Your task to perform on an android device: Clear all items from cart on target.com. Search for "razer naga" on target.com, select the first entry, add it to the cart, then select checkout. Image 0: 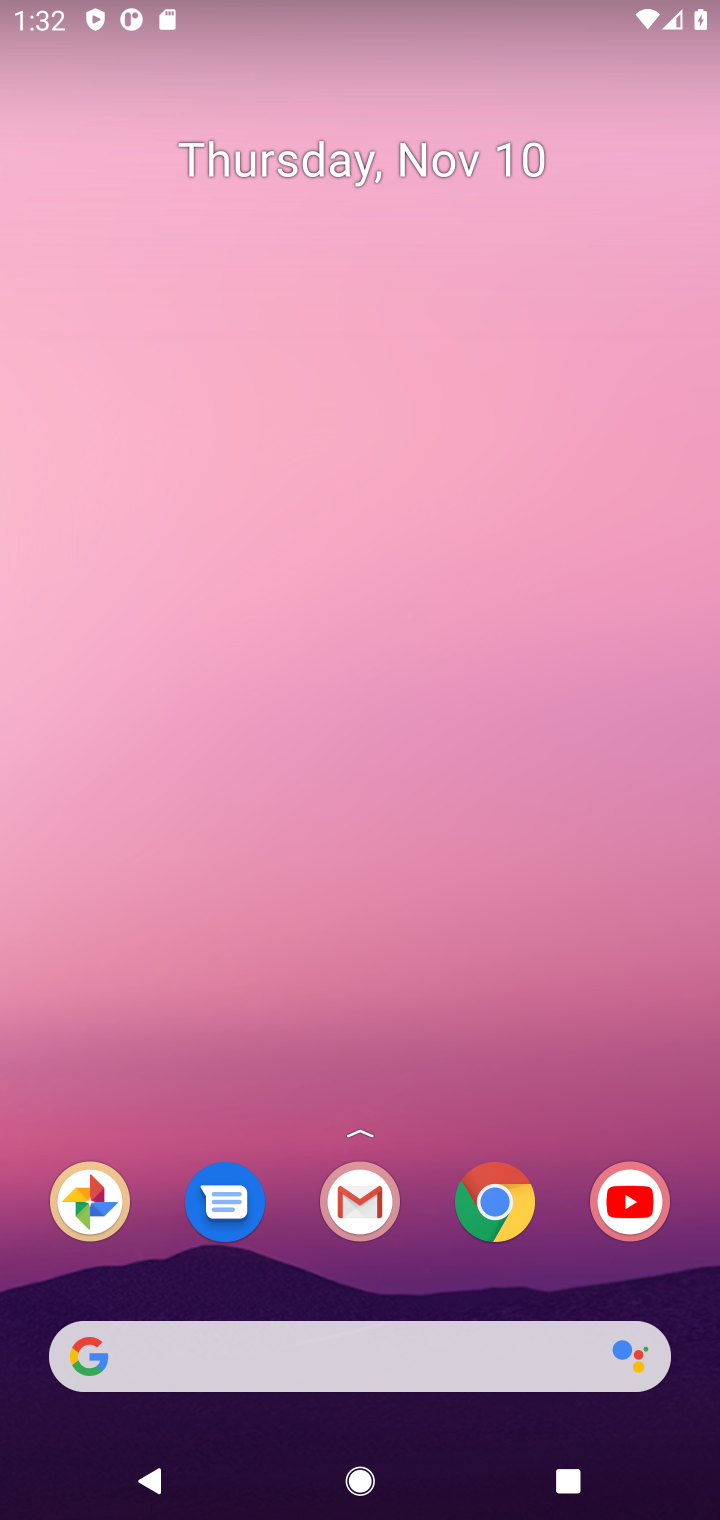
Step 0: click (490, 1203)
Your task to perform on an android device: Clear all items from cart on target.com. Search for "razer naga" on target.com, select the first entry, add it to the cart, then select checkout. Image 1: 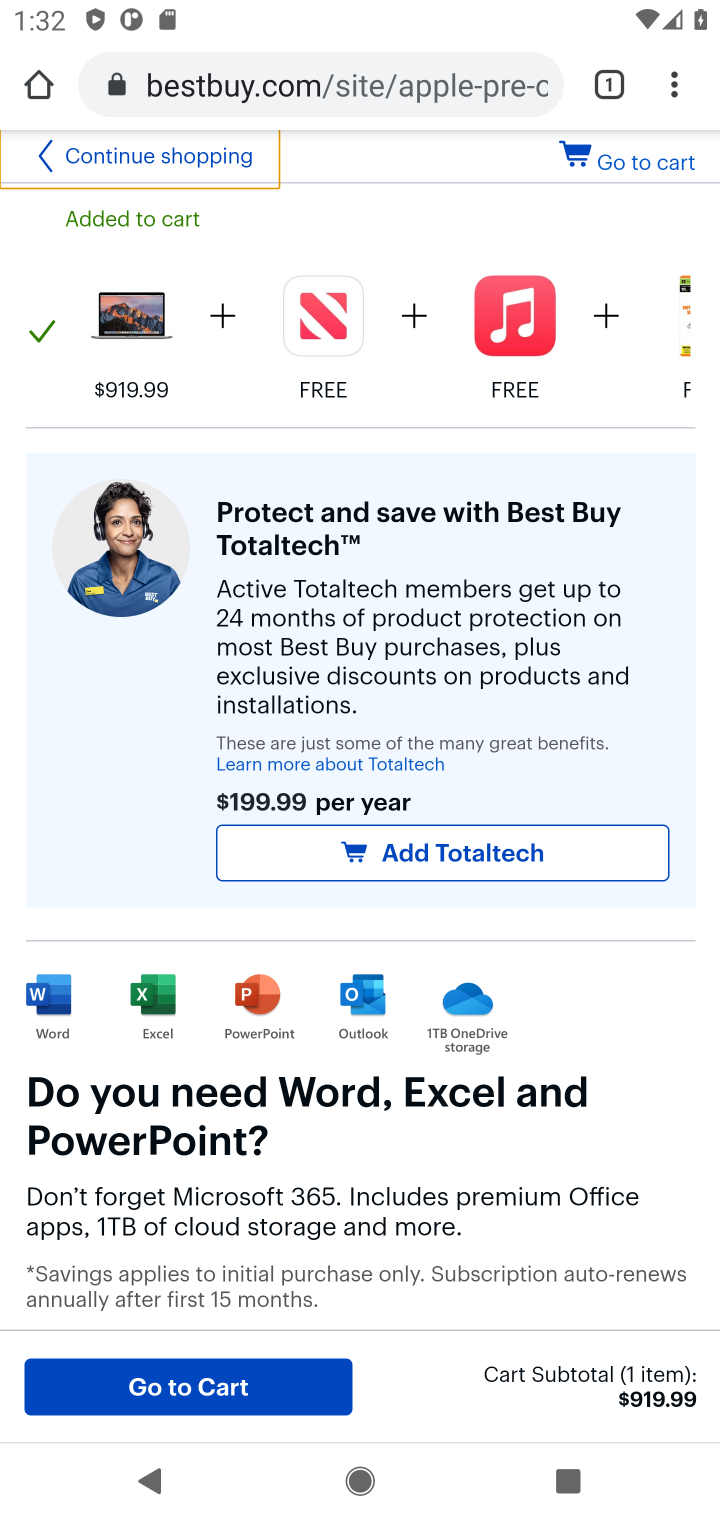
Step 1: click (378, 65)
Your task to perform on an android device: Clear all items from cart on target.com. Search for "razer naga" on target.com, select the first entry, add it to the cart, then select checkout. Image 2: 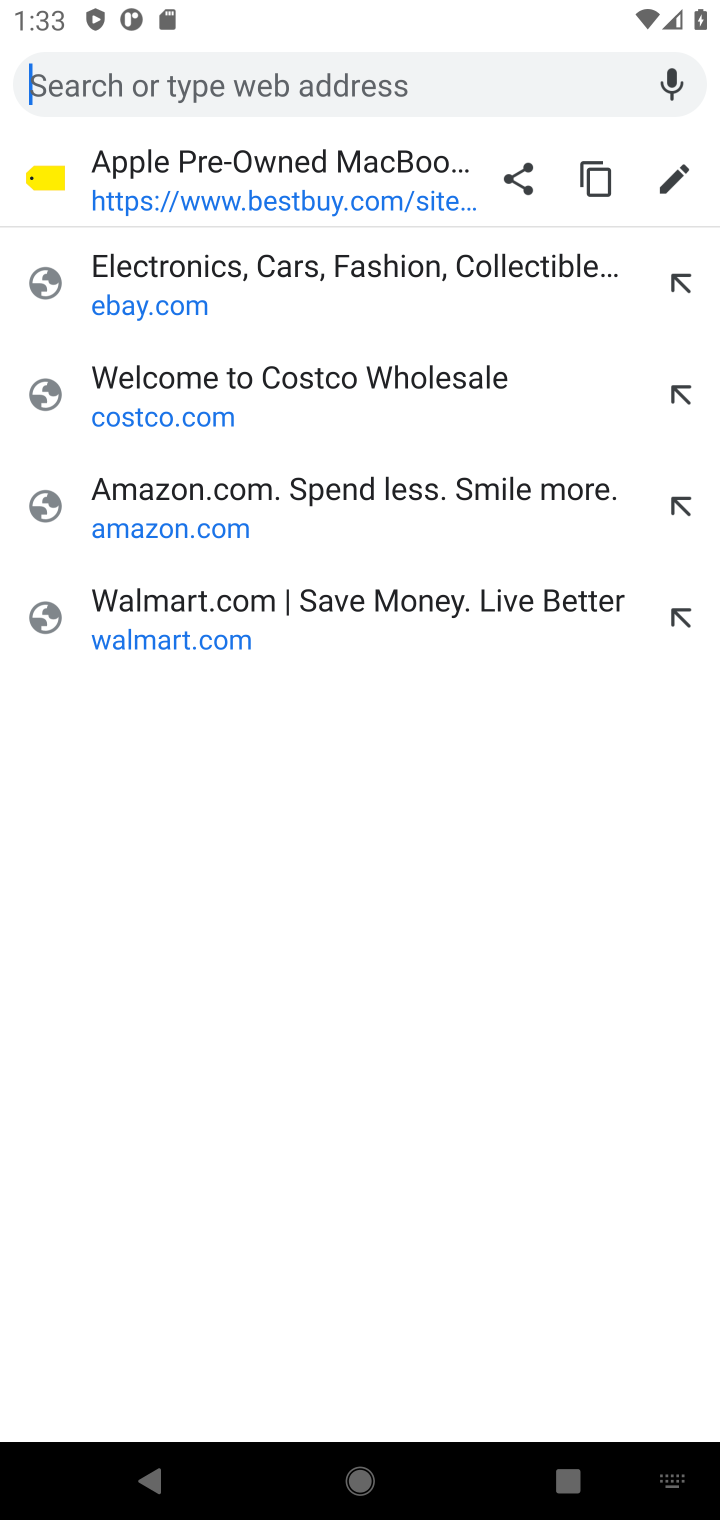
Step 2: type "target.com"
Your task to perform on an android device: Clear all items from cart on target.com. Search for "razer naga" on target.com, select the first entry, add it to the cart, then select checkout. Image 3: 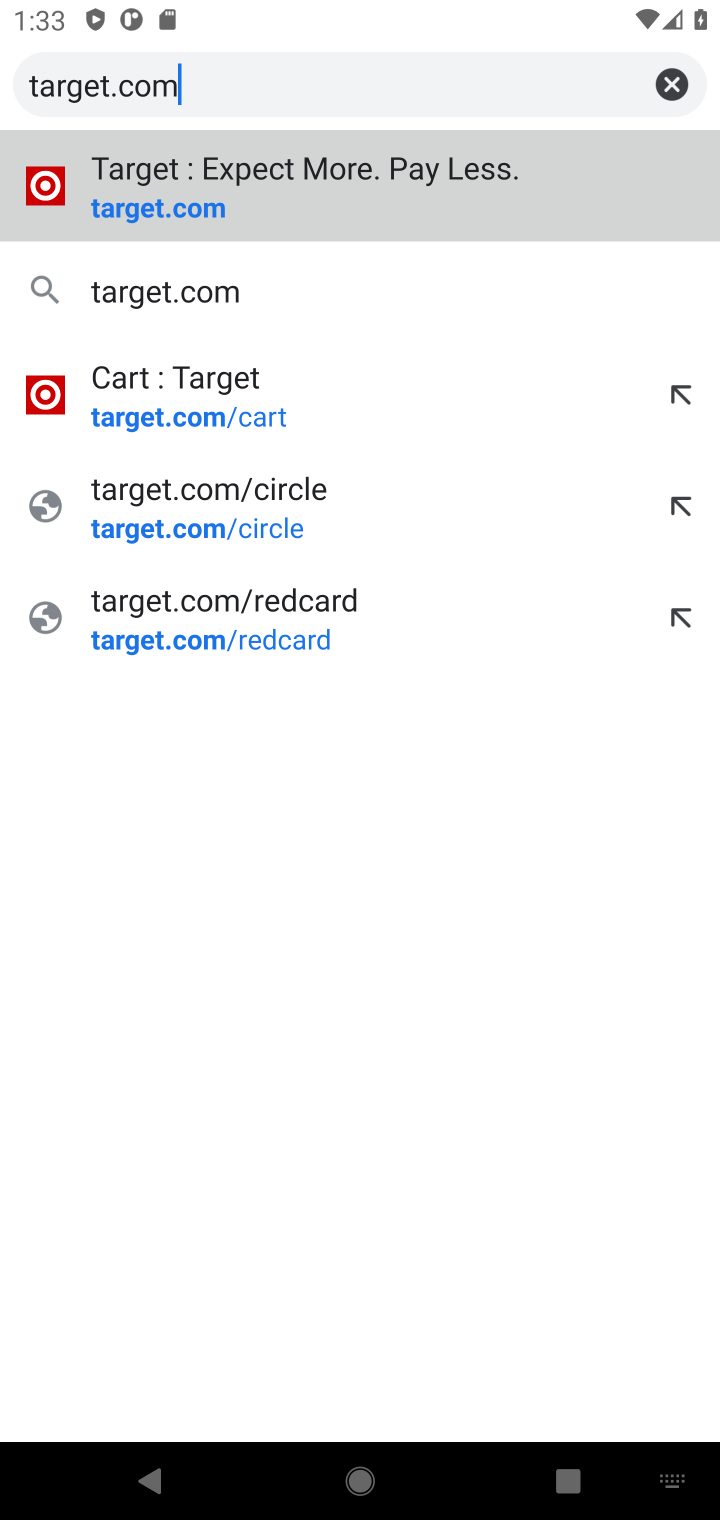
Step 3: click (223, 294)
Your task to perform on an android device: Clear all items from cart on target.com. Search for "razer naga" on target.com, select the first entry, add it to the cart, then select checkout. Image 4: 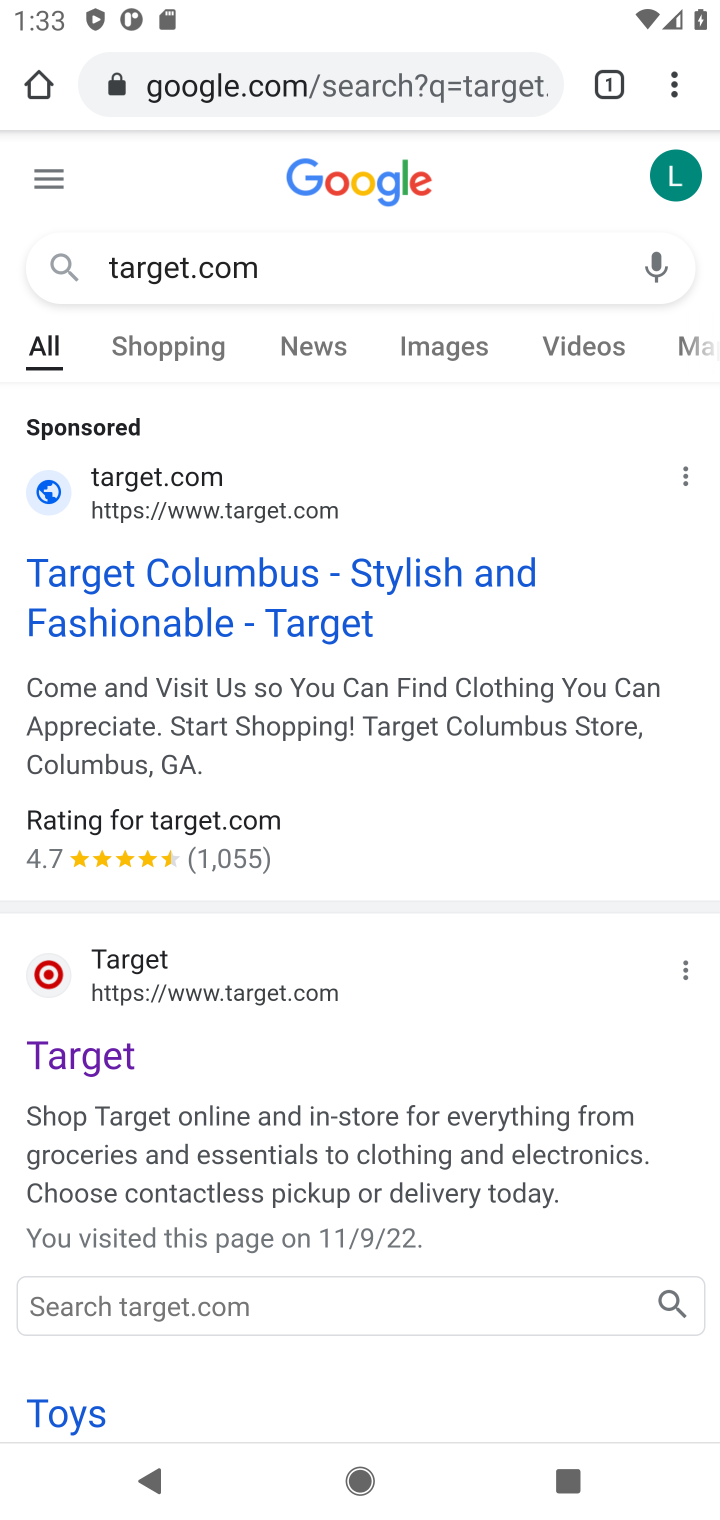
Step 4: click (291, 501)
Your task to perform on an android device: Clear all items from cart on target.com. Search for "razer naga" on target.com, select the first entry, add it to the cart, then select checkout. Image 5: 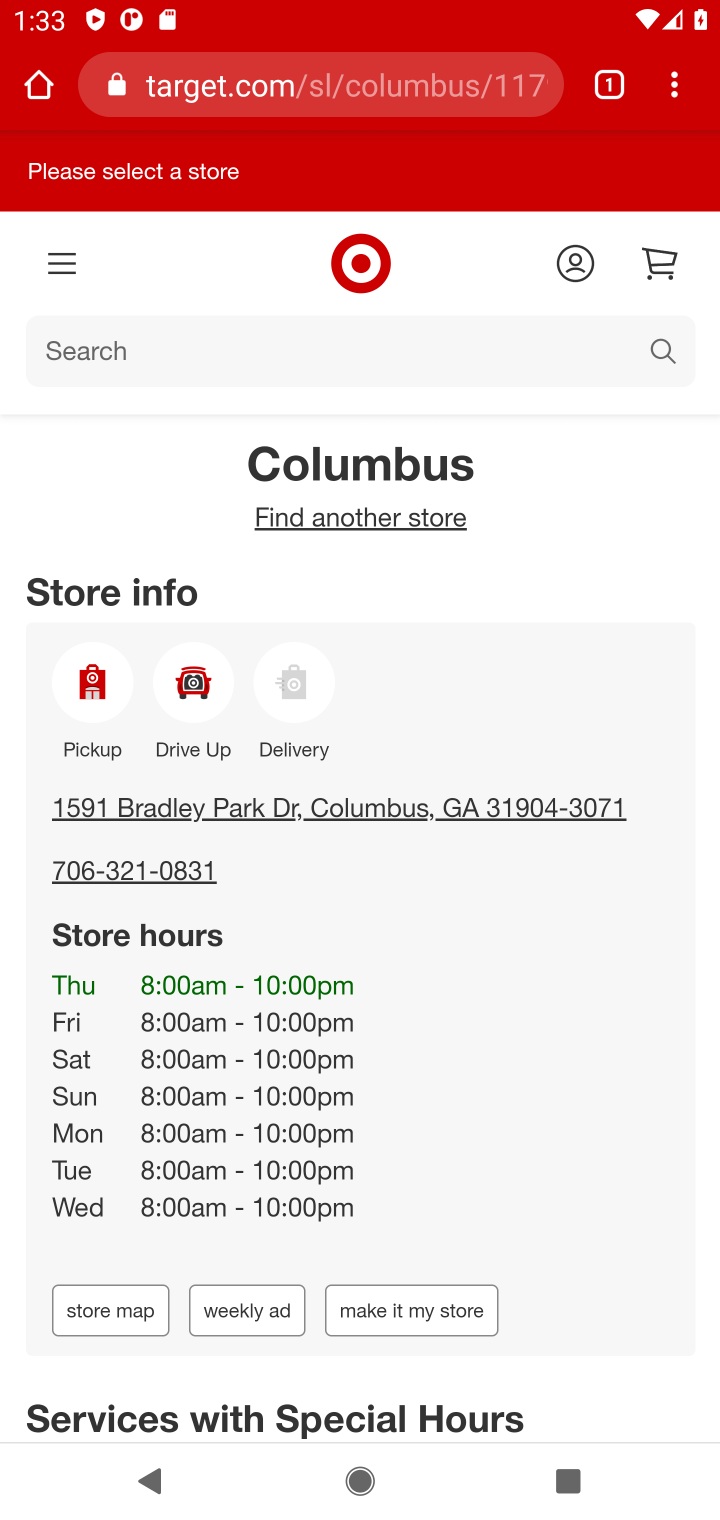
Step 5: click (670, 262)
Your task to perform on an android device: Clear all items from cart on target.com. Search for "razer naga" on target.com, select the first entry, add it to the cart, then select checkout. Image 6: 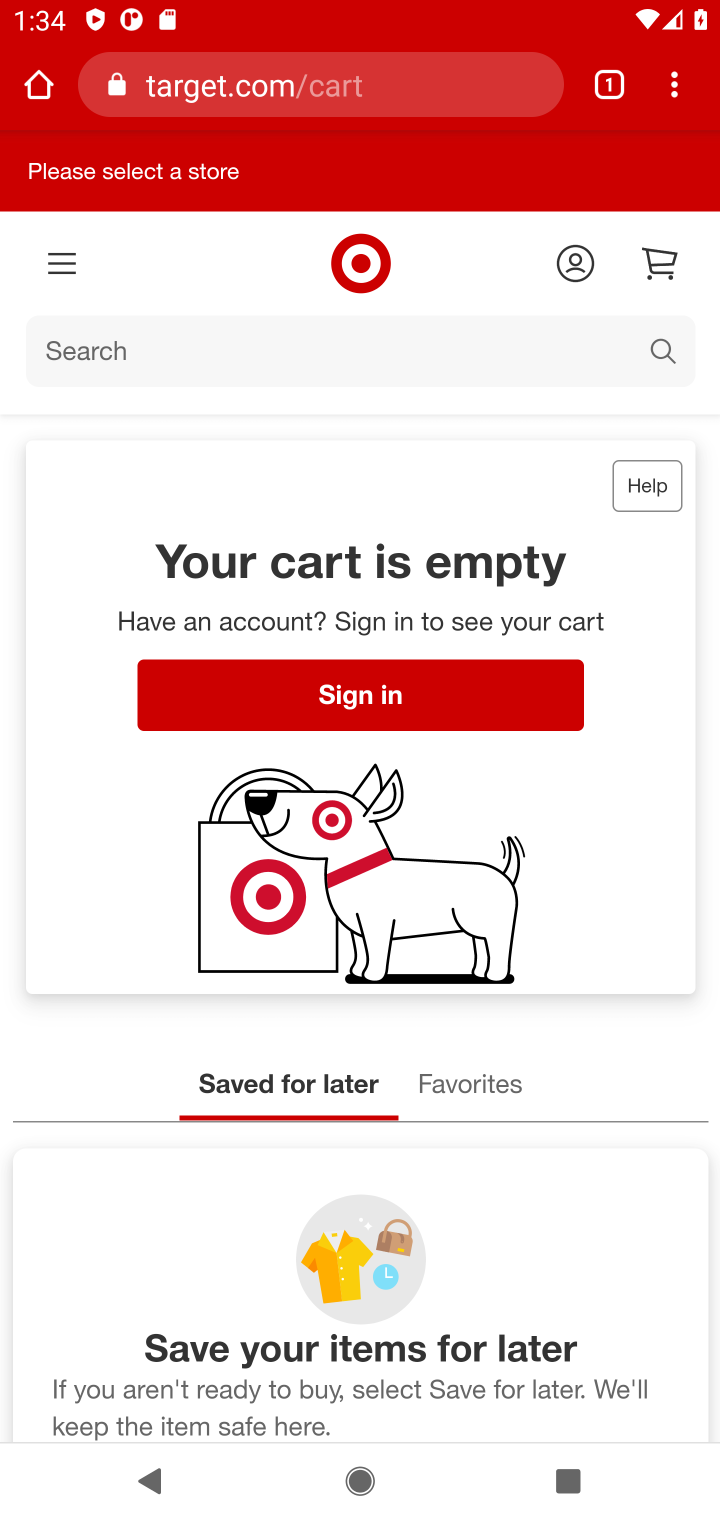
Step 6: click (671, 357)
Your task to perform on an android device: Clear all items from cart on target.com. Search for "razer naga" on target.com, select the first entry, add it to the cart, then select checkout. Image 7: 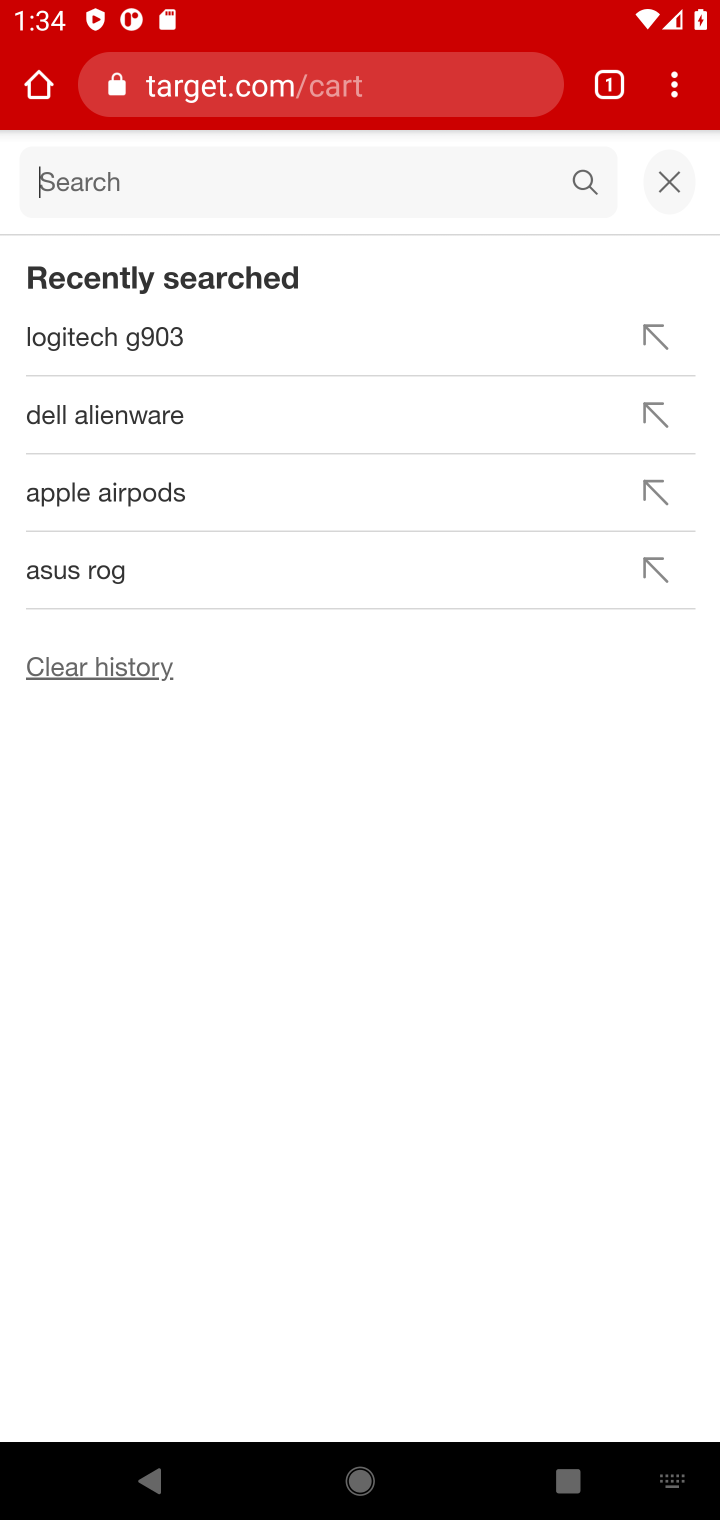
Step 7: press enter
Your task to perform on an android device: Clear all items from cart on target.com. Search for "razer naga" on target.com, select the first entry, add it to the cart, then select checkout. Image 8: 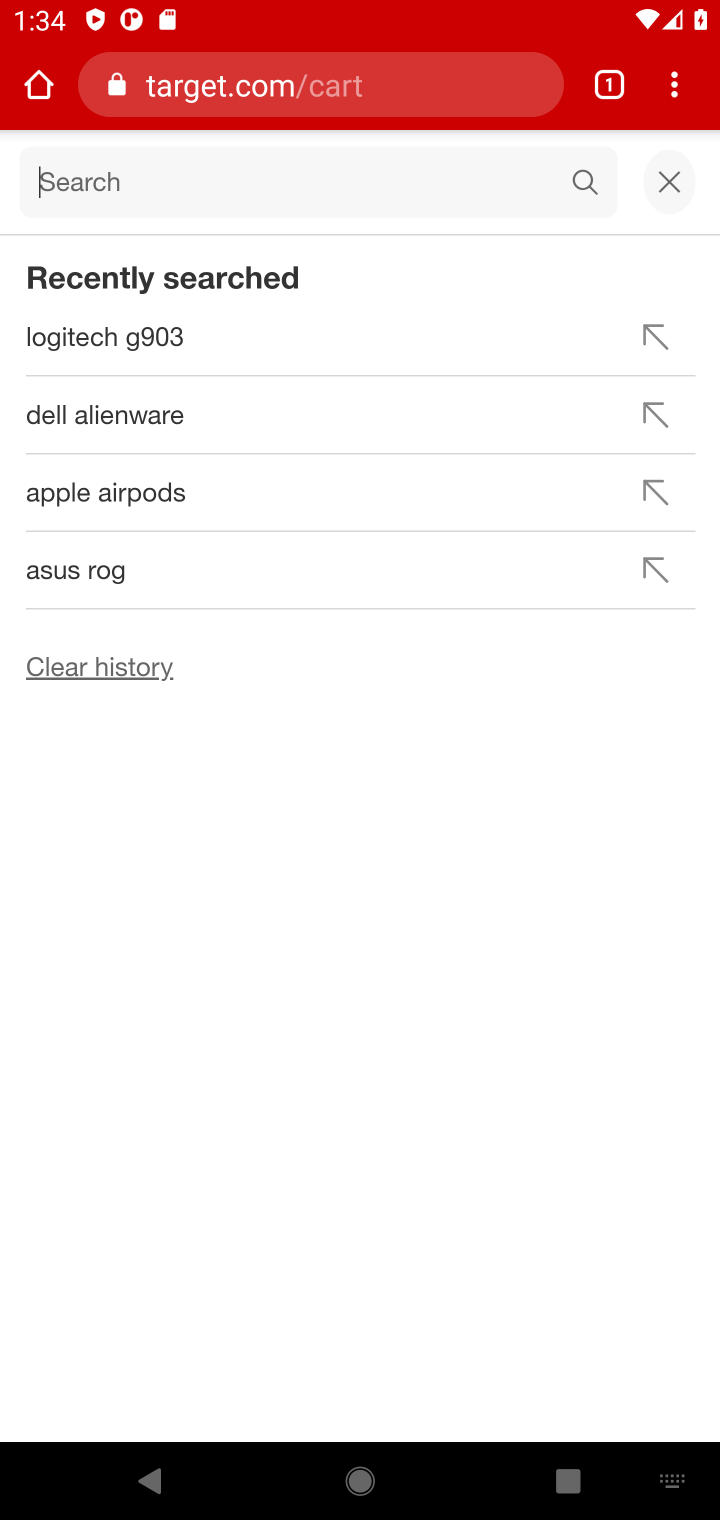
Step 8: type "razer naga"
Your task to perform on an android device: Clear all items from cart on target.com. Search for "razer naga" on target.com, select the first entry, add it to the cart, then select checkout. Image 9: 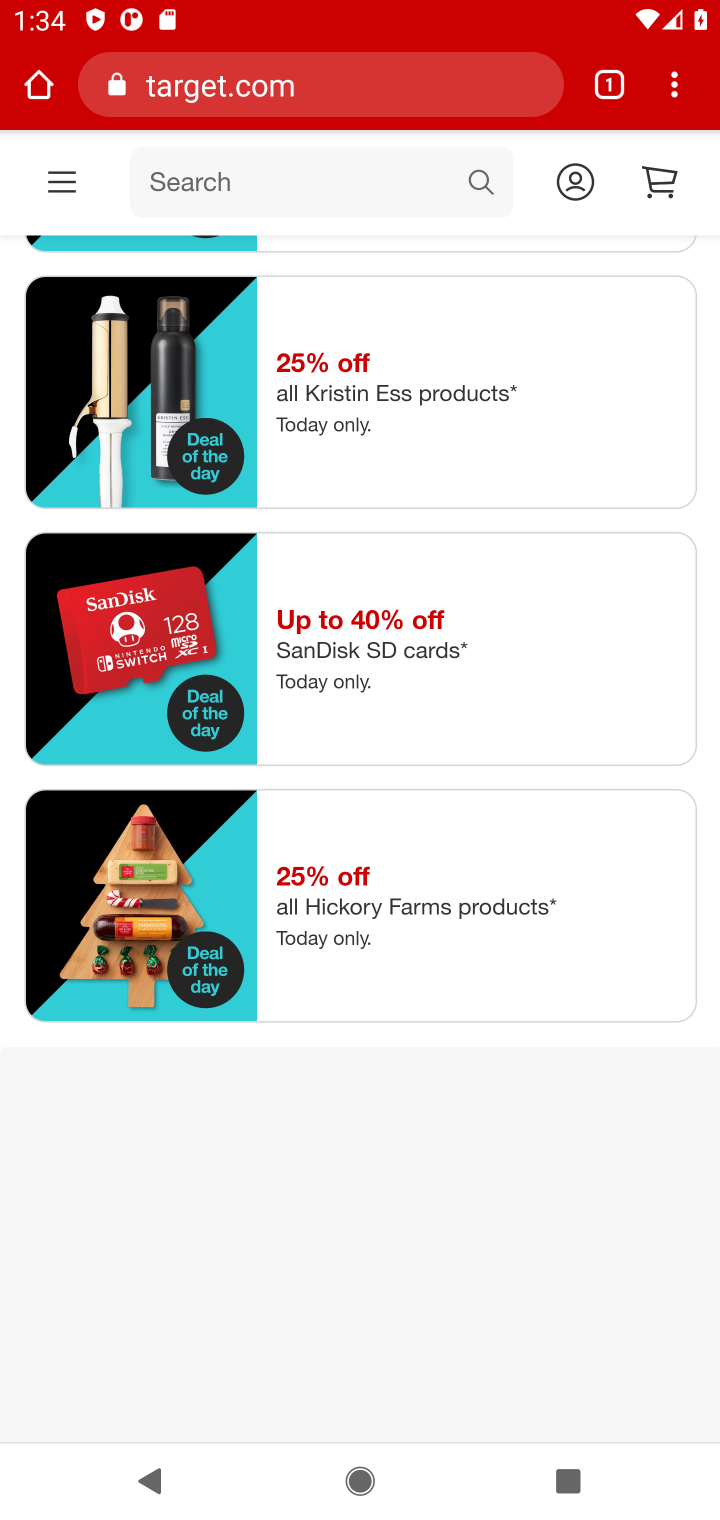
Step 9: click (486, 189)
Your task to perform on an android device: Clear all items from cart on target.com. Search for "razer naga" on target.com, select the first entry, add it to the cart, then select checkout. Image 10: 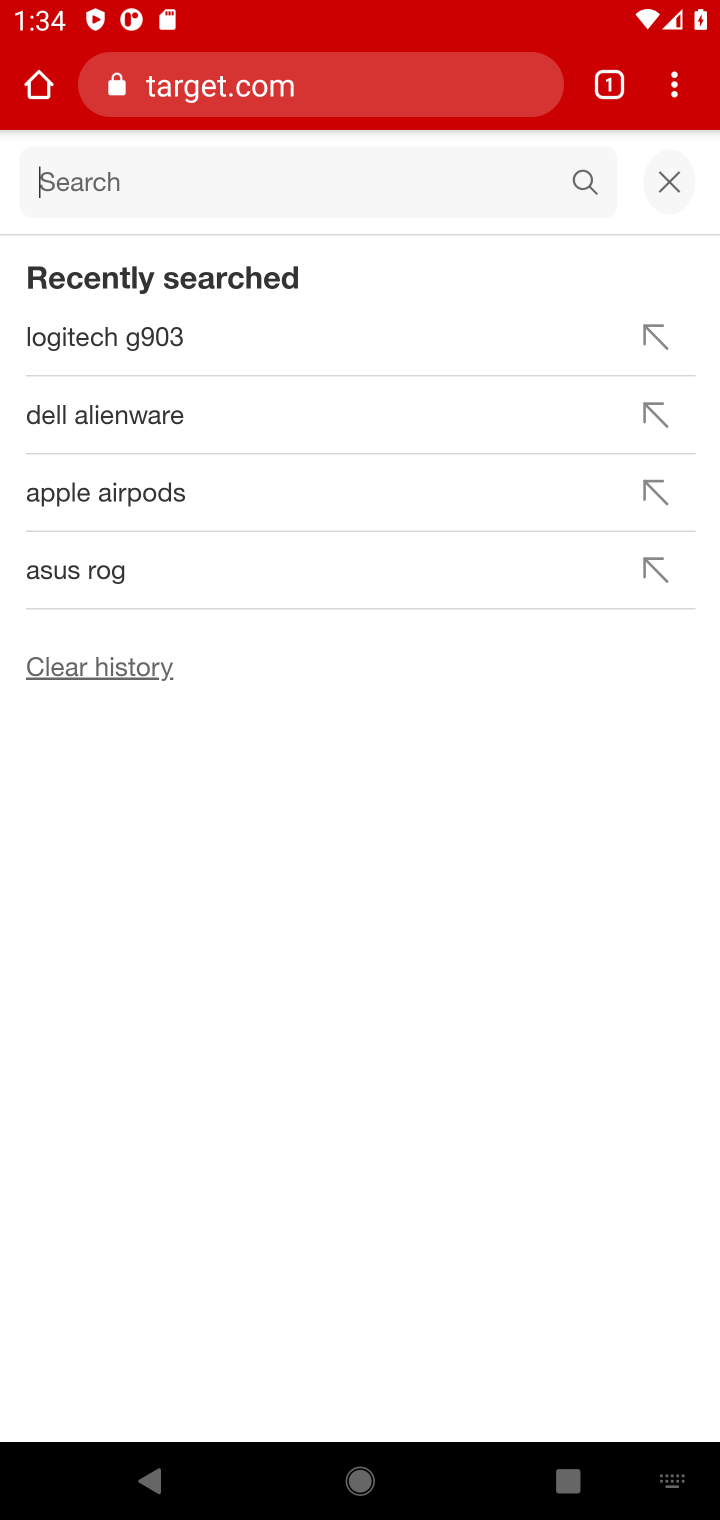
Step 10: press enter
Your task to perform on an android device: Clear all items from cart on target.com. Search for "razer naga" on target.com, select the first entry, add it to the cart, then select checkout. Image 11: 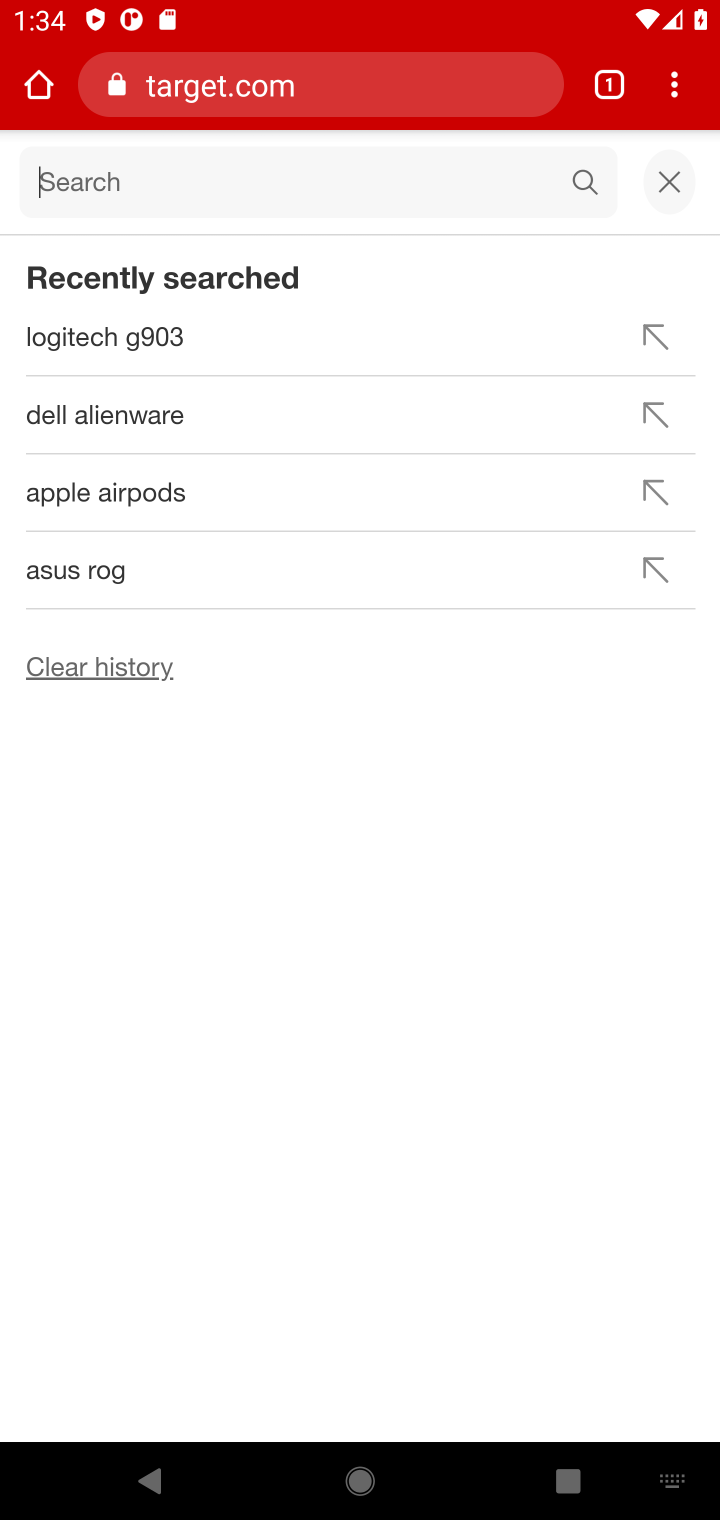
Step 11: type "razer naga"
Your task to perform on an android device: Clear all items from cart on target.com. Search for "razer naga" on target.com, select the first entry, add it to the cart, then select checkout. Image 12: 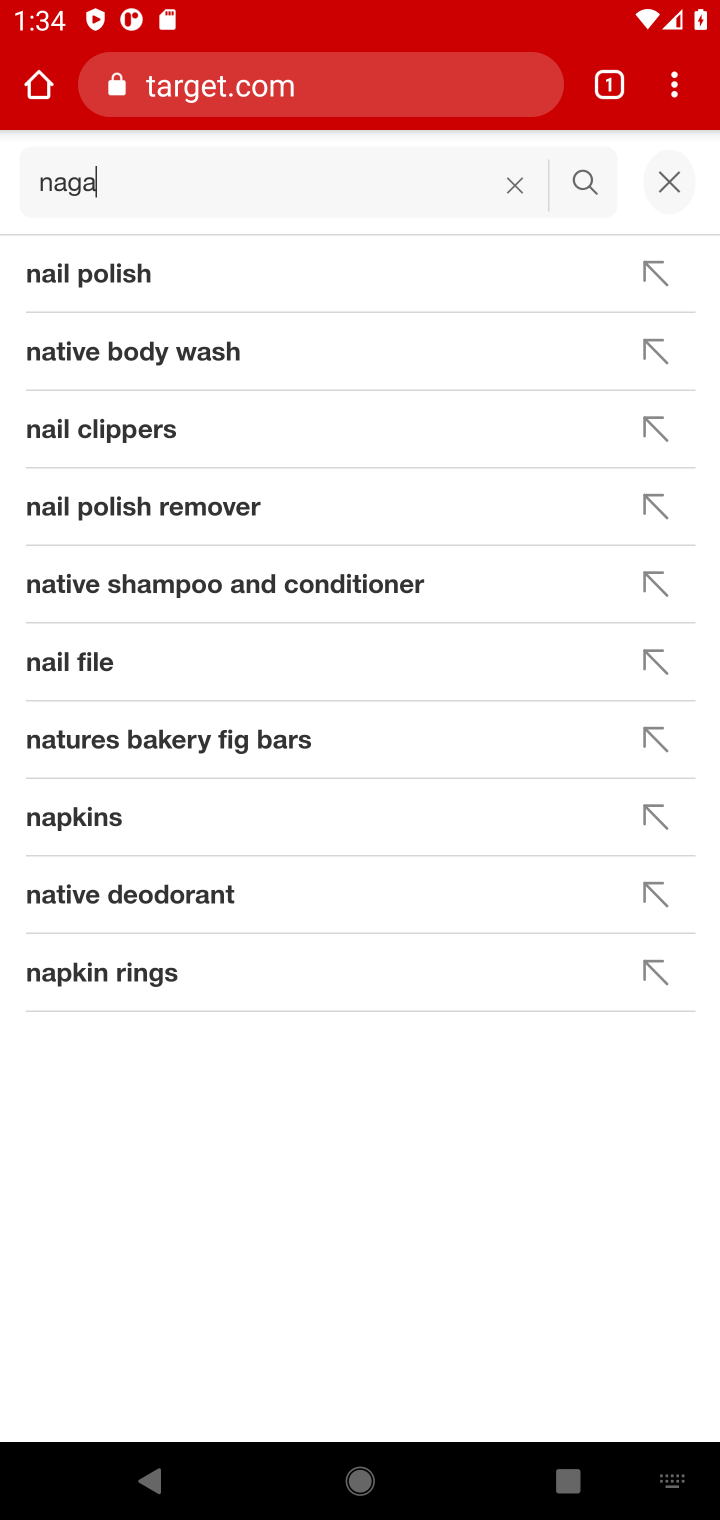
Step 12: click (676, 178)
Your task to perform on an android device: Clear all items from cart on target.com. Search for "razer naga" on target.com, select the first entry, add it to the cart, then select checkout. Image 13: 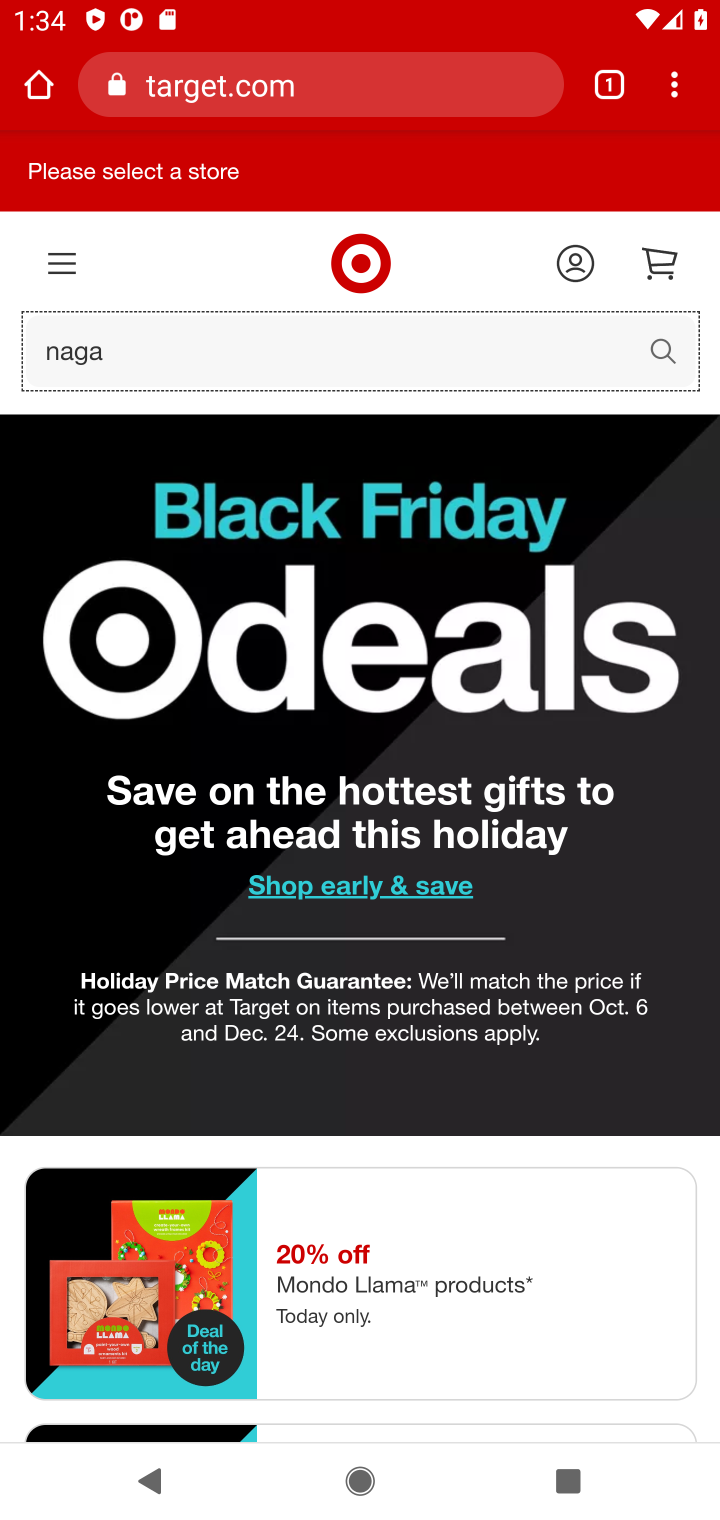
Step 13: click (657, 354)
Your task to perform on an android device: Clear all items from cart on target.com. Search for "razer naga" on target.com, select the first entry, add it to the cart, then select checkout. Image 14: 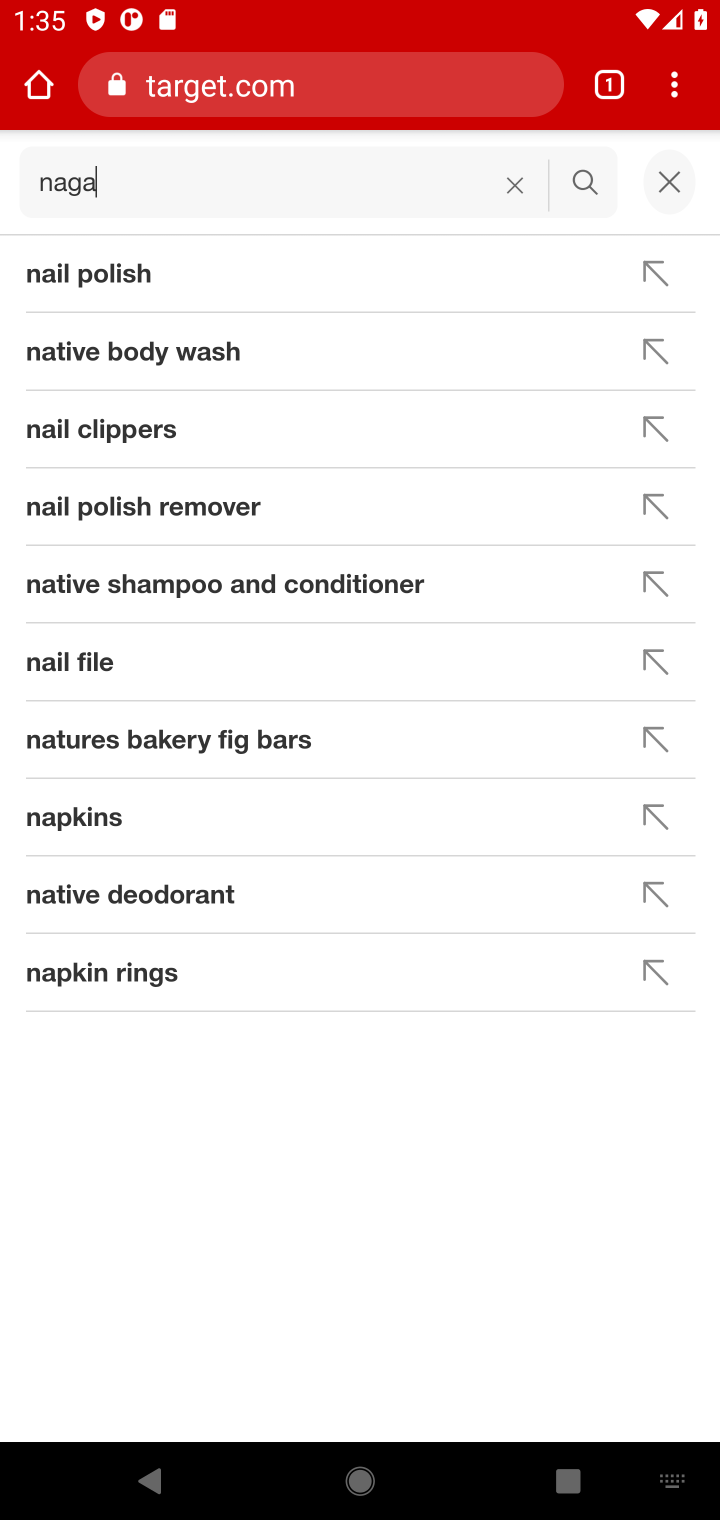
Step 14: click (514, 174)
Your task to perform on an android device: Clear all items from cart on target.com. Search for "razer naga" on target.com, select the first entry, add it to the cart, then select checkout. Image 15: 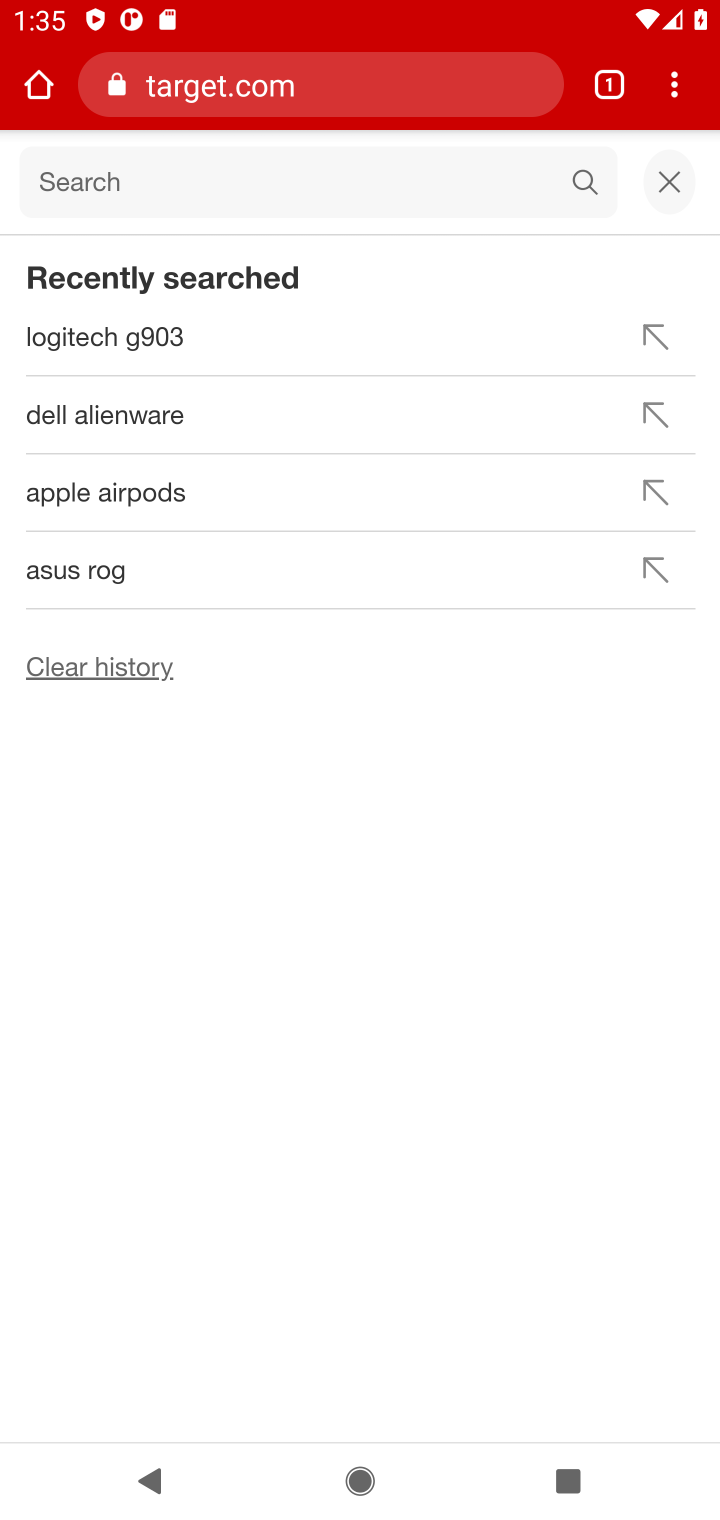
Step 15: type "razer naga"
Your task to perform on an android device: Clear all items from cart on target.com. Search for "razer naga" on target.com, select the first entry, add it to the cart, then select checkout. Image 16: 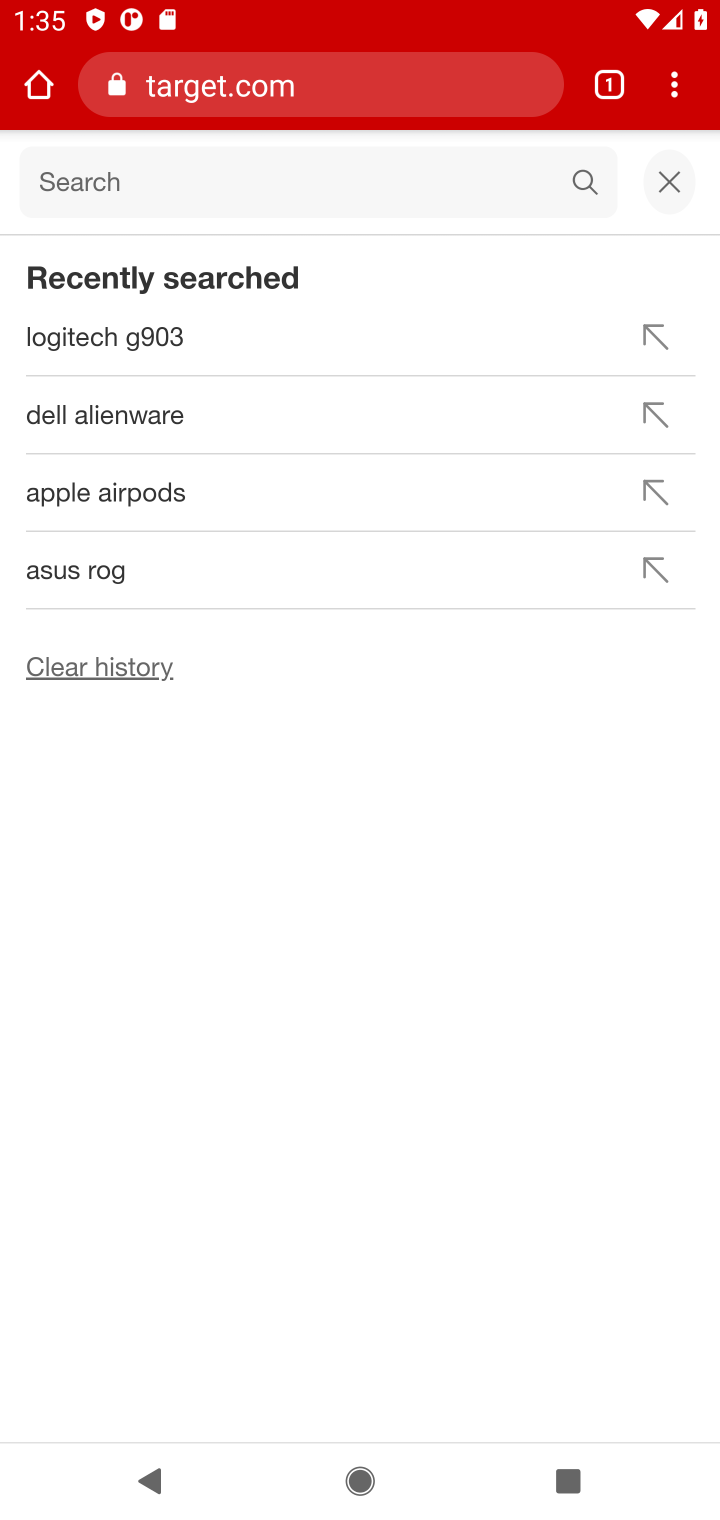
Step 16: press enter
Your task to perform on an android device: Clear all items from cart on target.com. Search for "razer naga" on target.com, select the first entry, add it to the cart, then select checkout. Image 17: 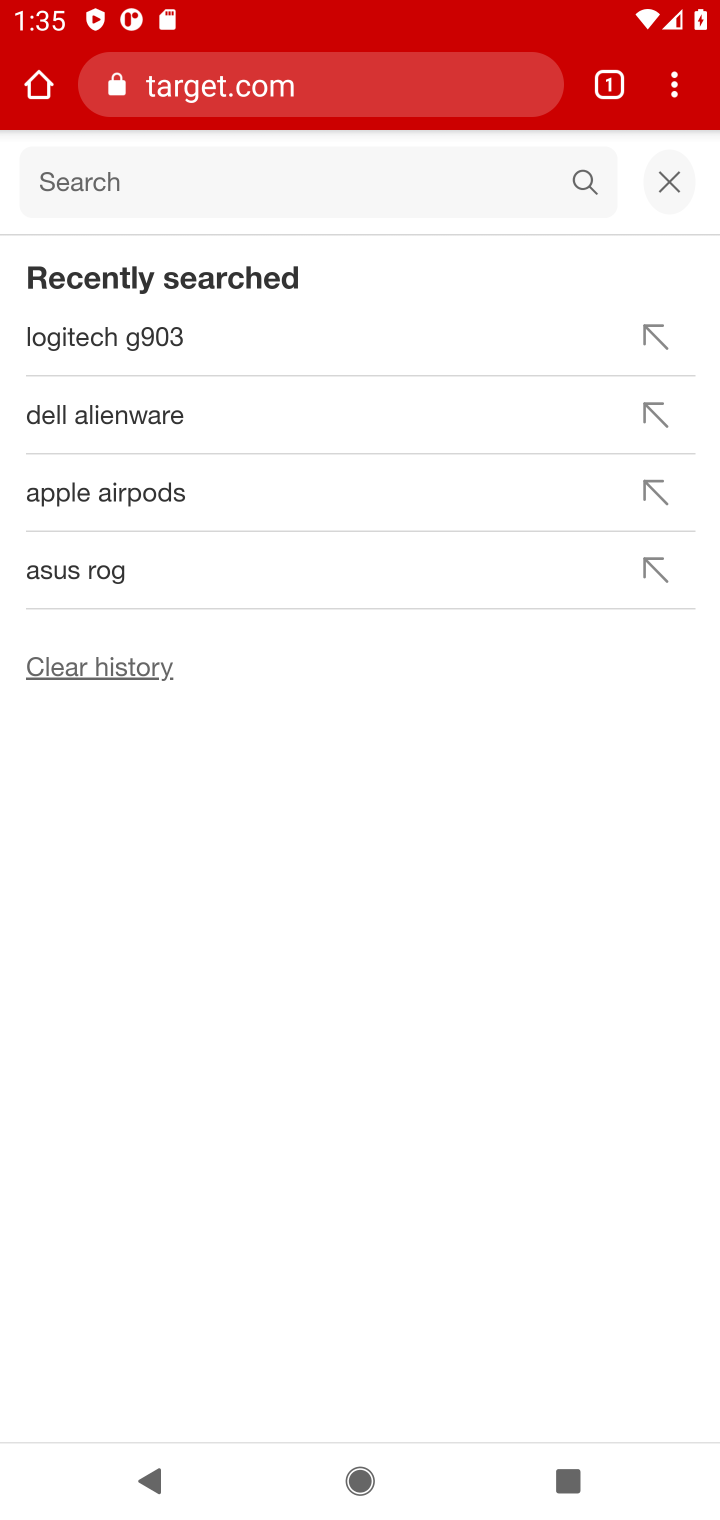
Step 17: click (380, 194)
Your task to perform on an android device: Clear all items from cart on target.com. Search for "razer naga" on target.com, select the first entry, add it to the cart, then select checkout. Image 18: 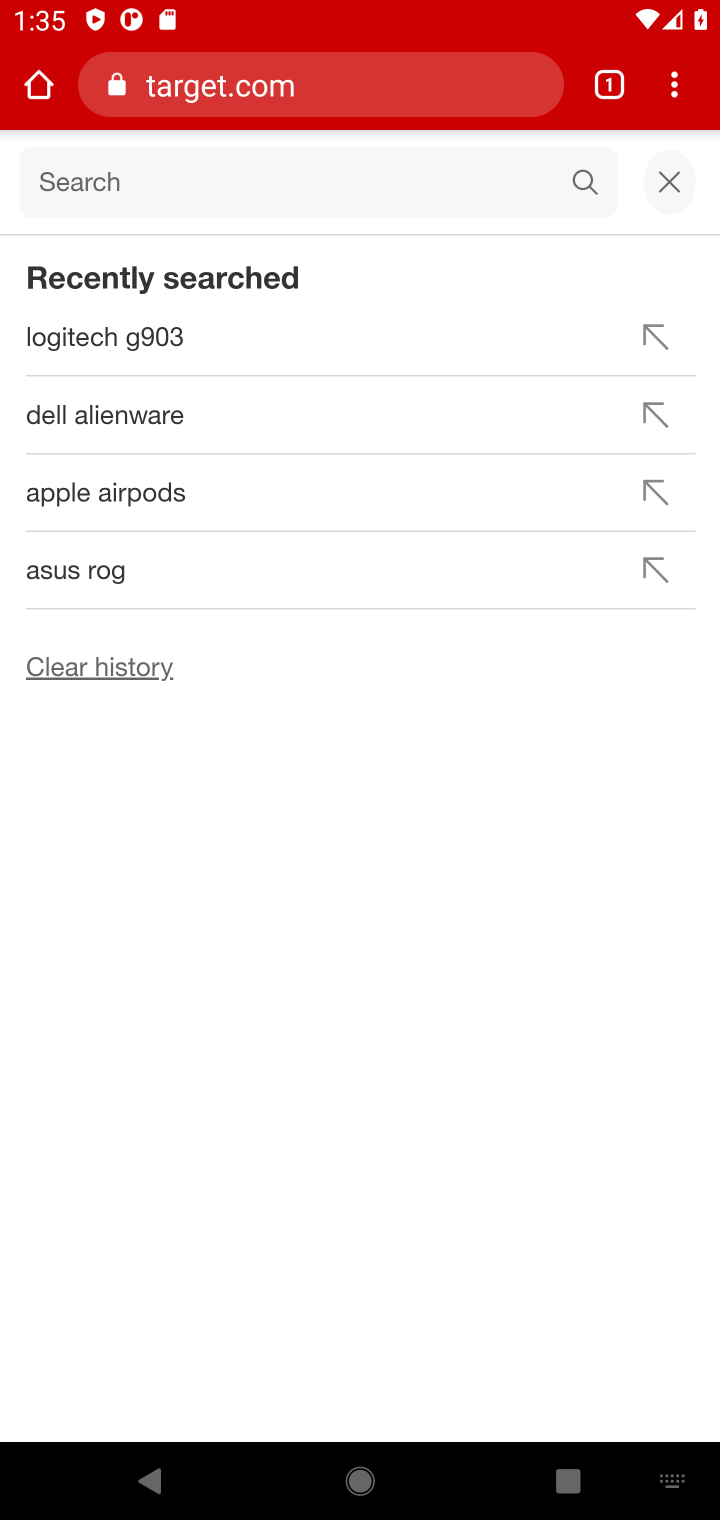
Step 18: type "razer naga"
Your task to perform on an android device: Clear all items from cart on target.com. Search for "razer naga" on target.com, select the first entry, add it to the cart, then select checkout. Image 19: 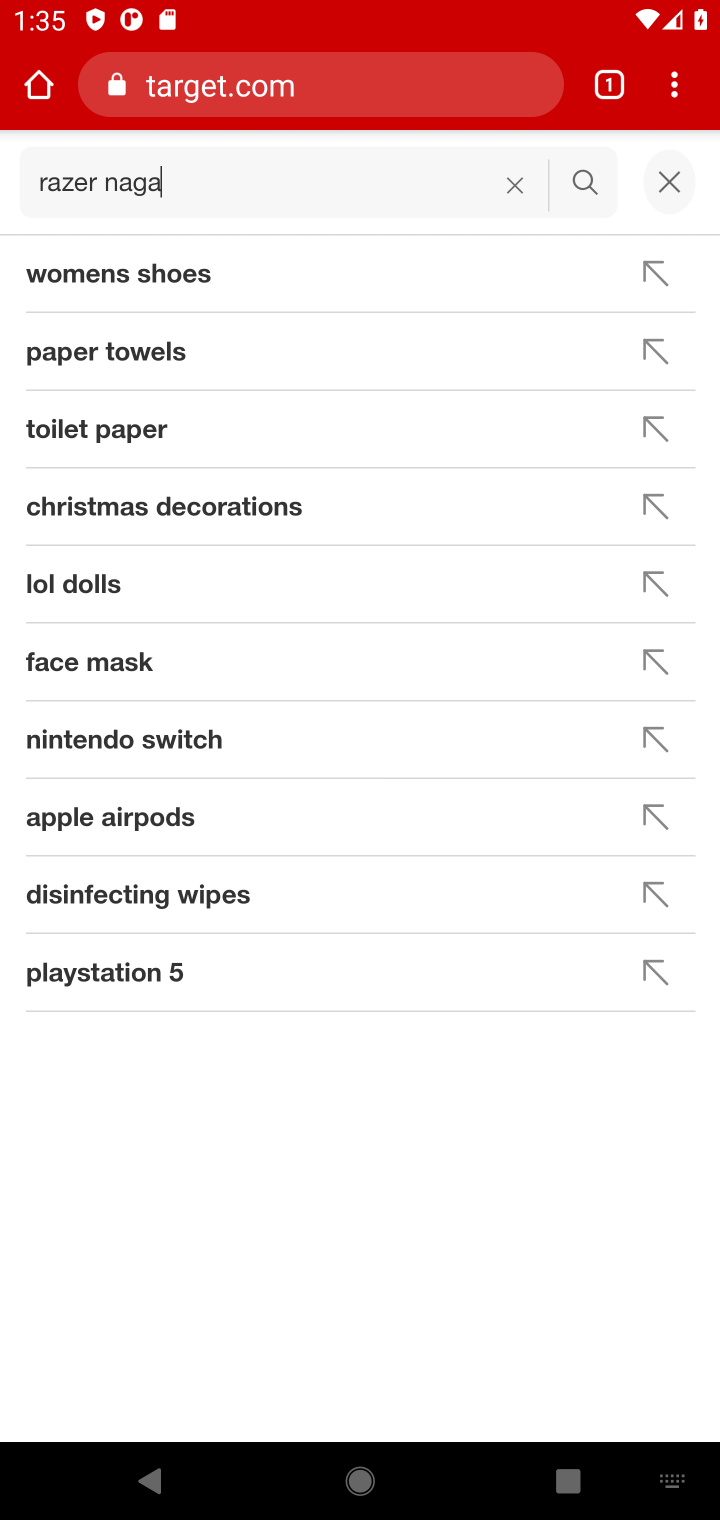
Step 19: press enter
Your task to perform on an android device: Clear all items from cart on target.com. Search for "razer naga" on target.com, select the first entry, add it to the cart, then select checkout. Image 20: 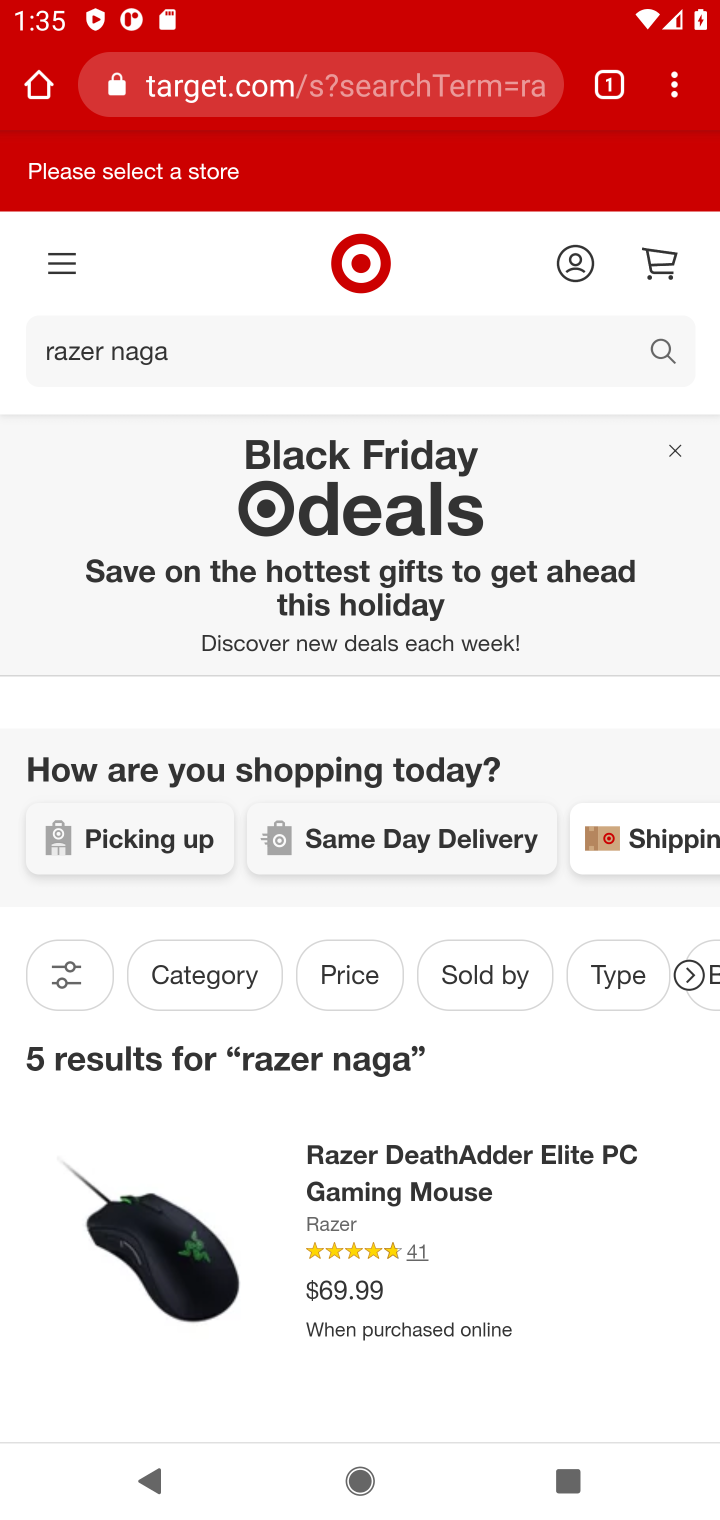
Step 20: drag from (516, 1249) to (453, 760)
Your task to perform on an android device: Clear all items from cart on target.com. Search for "razer naga" on target.com, select the first entry, add it to the cart, then select checkout. Image 21: 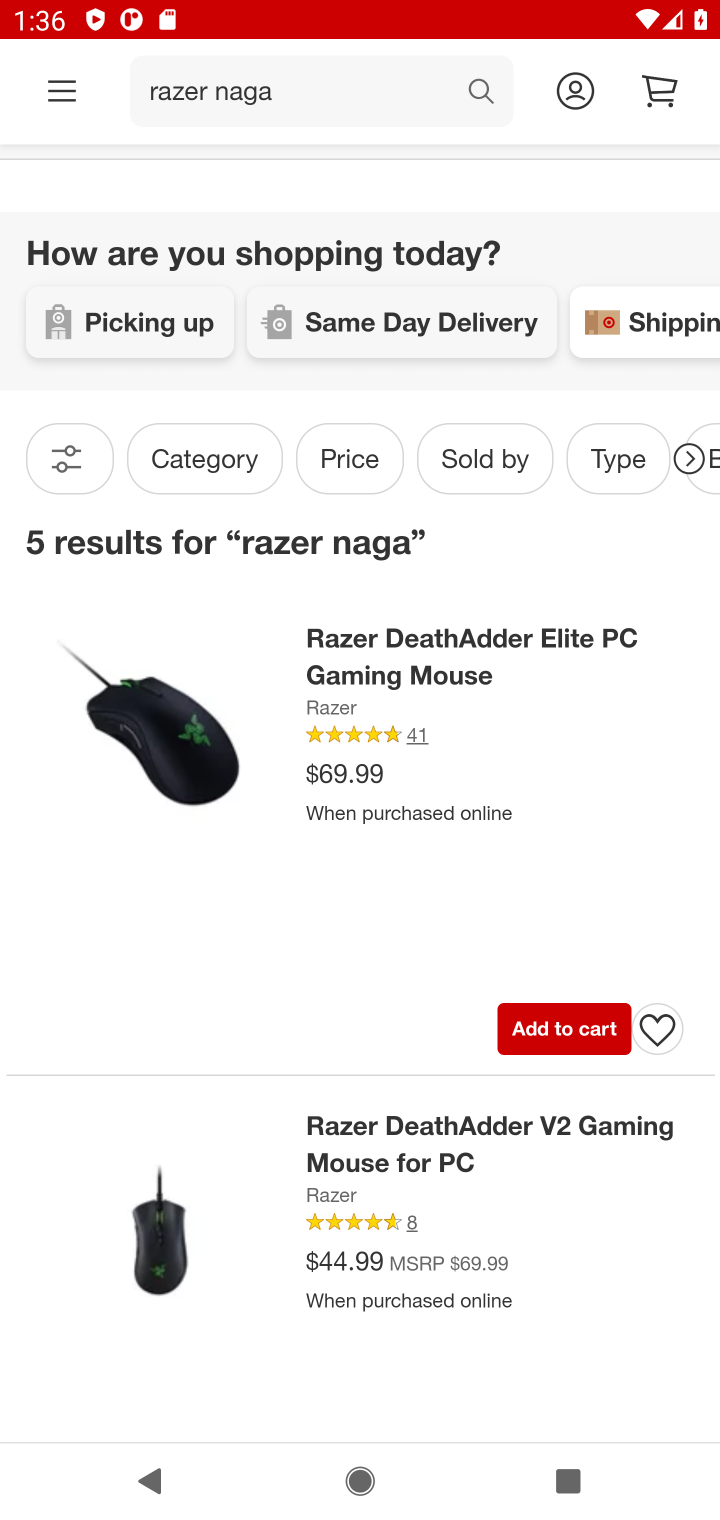
Step 21: drag from (405, 1234) to (429, 652)
Your task to perform on an android device: Clear all items from cart on target.com. Search for "razer naga" on target.com, select the first entry, add it to the cart, then select checkout. Image 22: 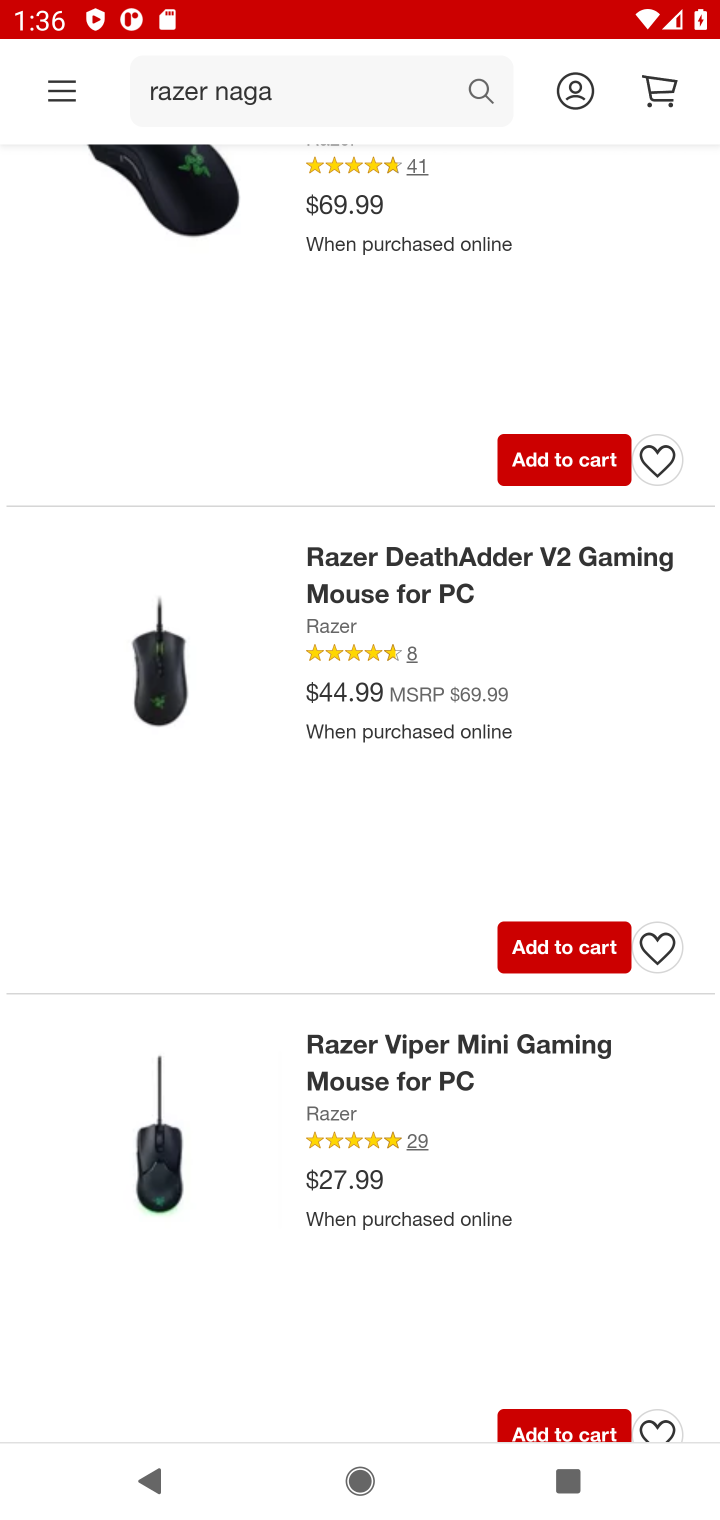
Step 22: drag from (321, 1212) to (331, 702)
Your task to perform on an android device: Clear all items from cart on target.com. Search for "razer naga" on target.com, select the first entry, add it to the cart, then select checkout. Image 23: 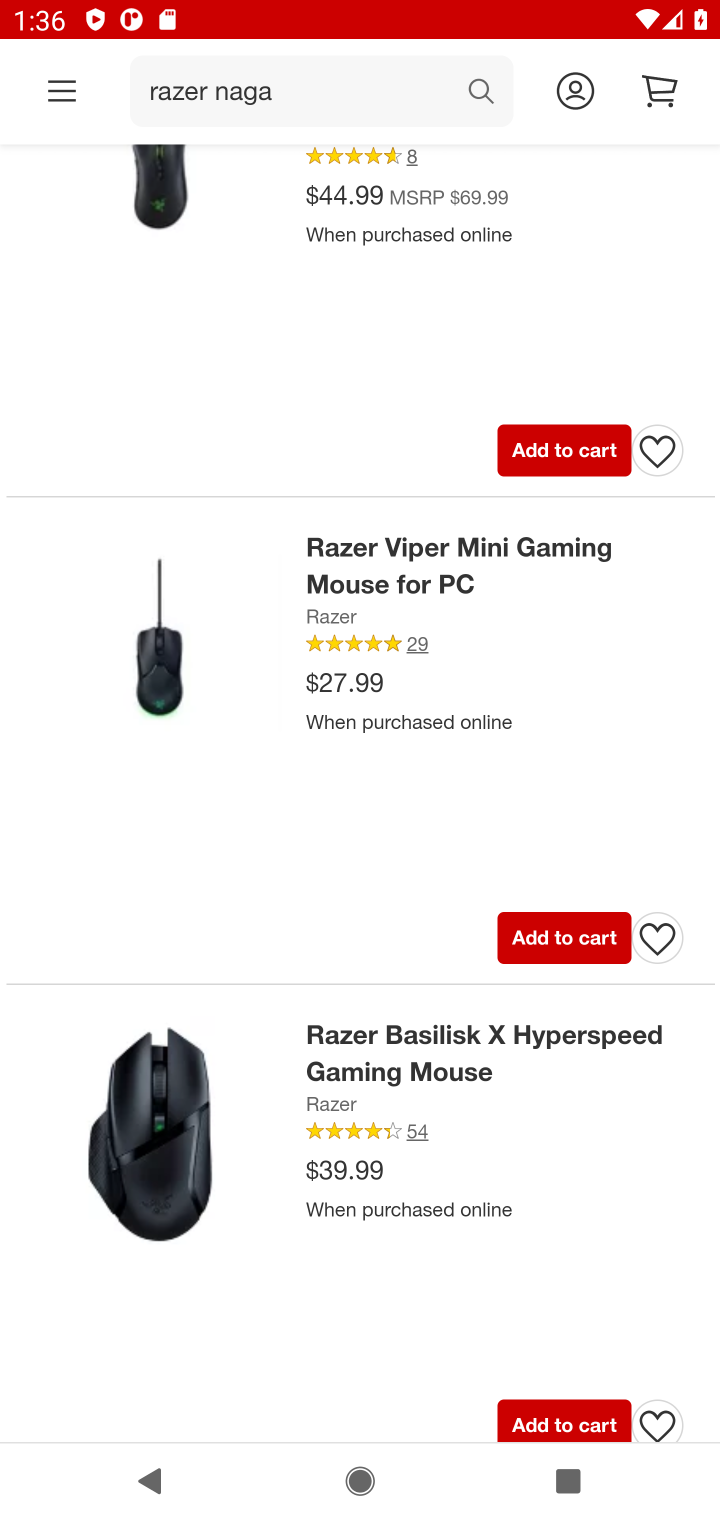
Step 23: drag from (417, 1112) to (441, 714)
Your task to perform on an android device: Clear all items from cart on target.com. Search for "razer naga" on target.com, select the first entry, add it to the cart, then select checkout. Image 24: 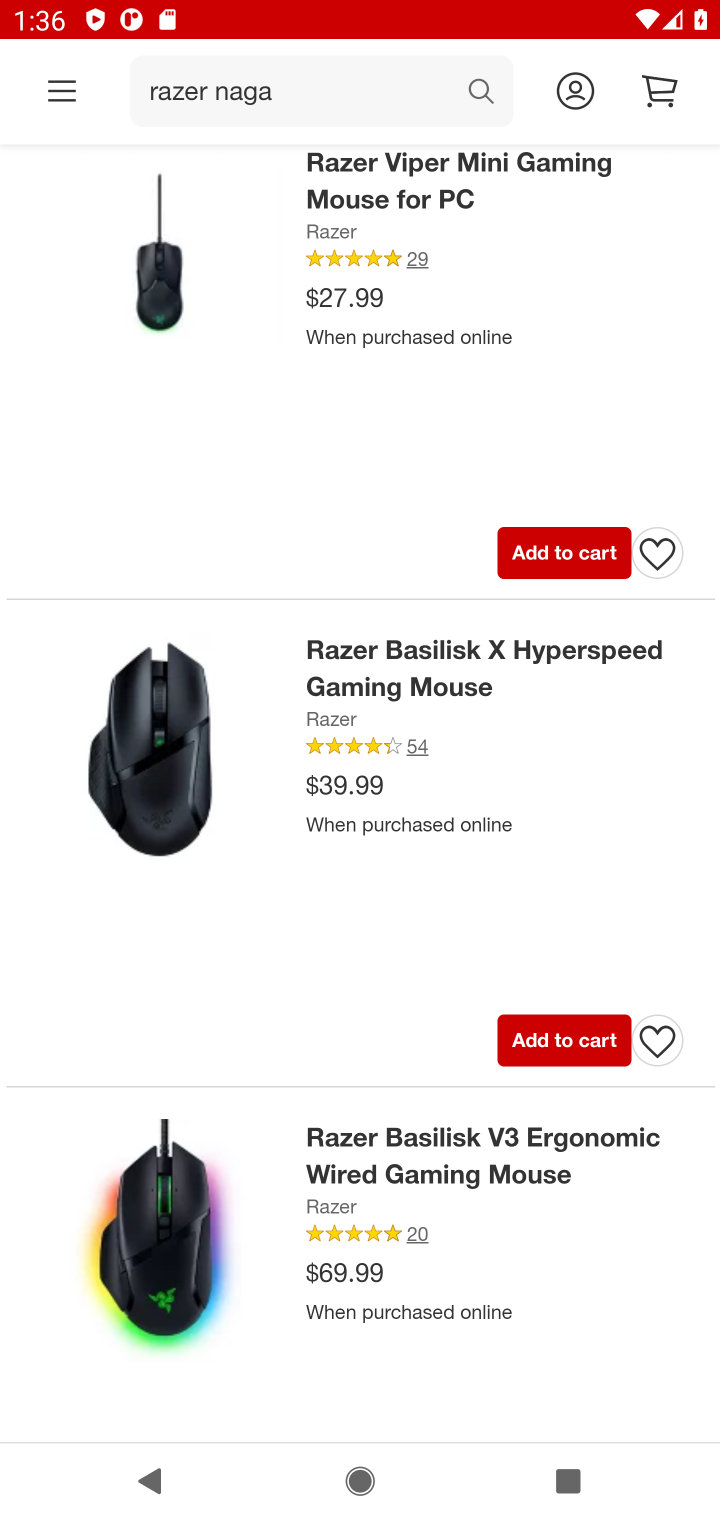
Step 24: drag from (431, 1234) to (448, 867)
Your task to perform on an android device: Clear all items from cart on target.com. Search for "razer naga" on target.com, select the first entry, add it to the cart, then select checkout. Image 25: 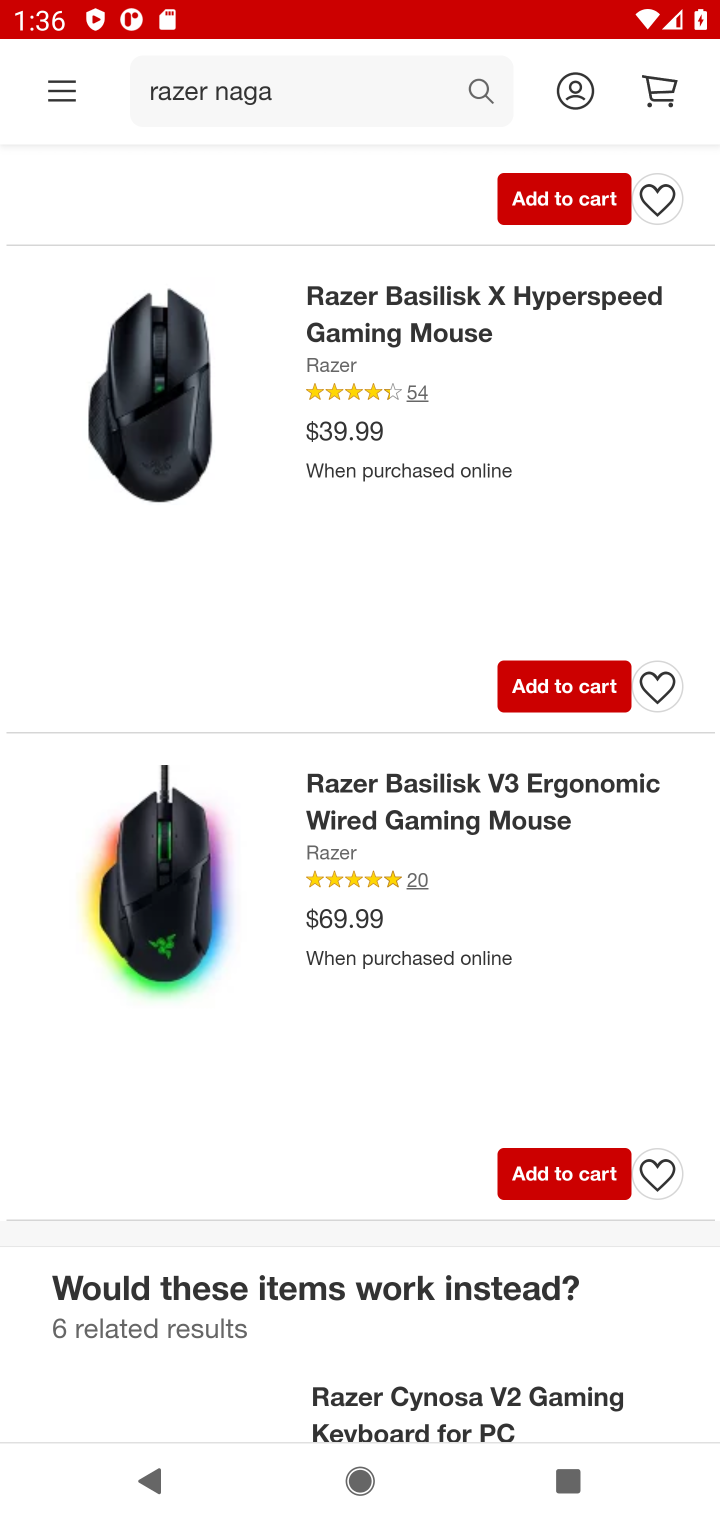
Step 25: drag from (485, 1363) to (501, 859)
Your task to perform on an android device: Clear all items from cart on target.com. Search for "razer naga" on target.com, select the first entry, add it to the cart, then select checkout. Image 26: 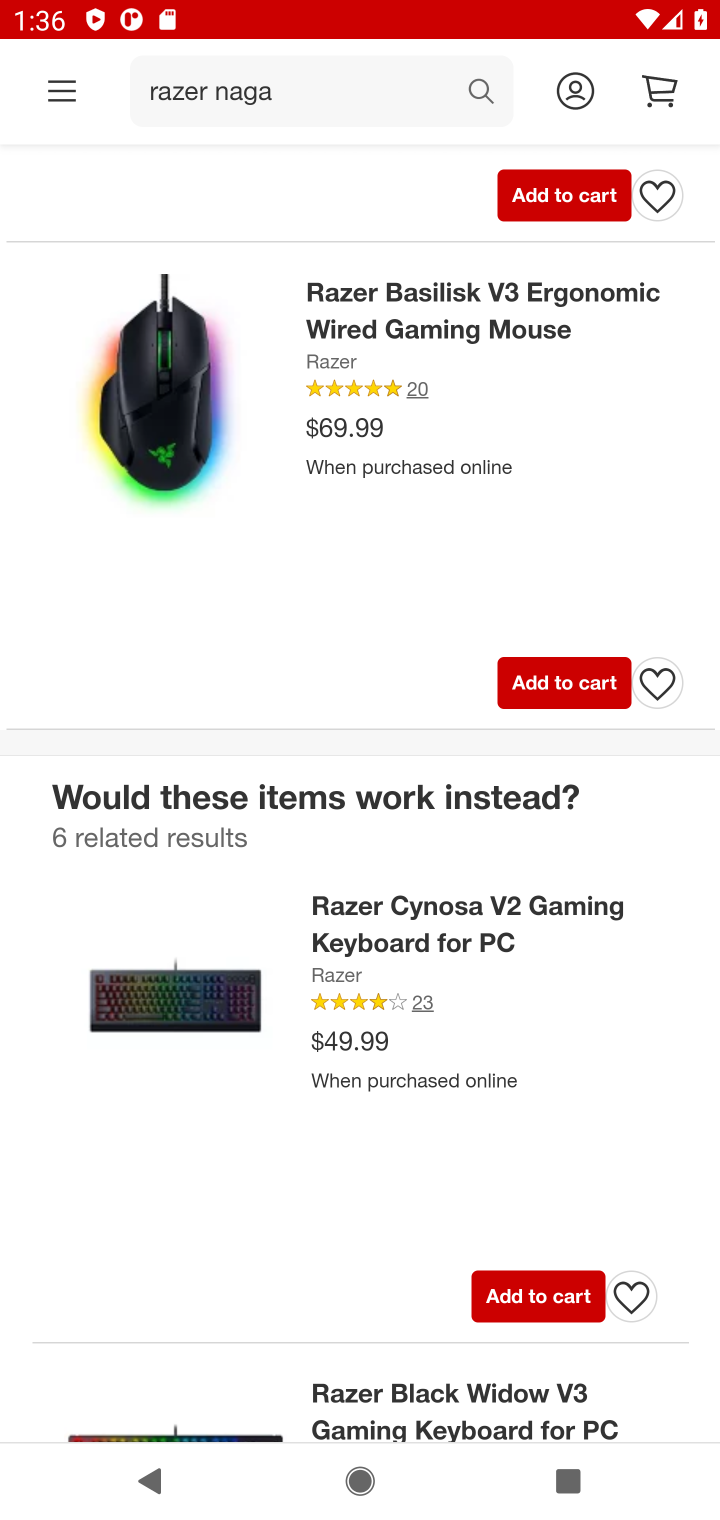
Step 26: drag from (390, 1181) to (403, 720)
Your task to perform on an android device: Clear all items from cart on target.com. Search for "razer naga" on target.com, select the first entry, add it to the cart, then select checkout. Image 27: 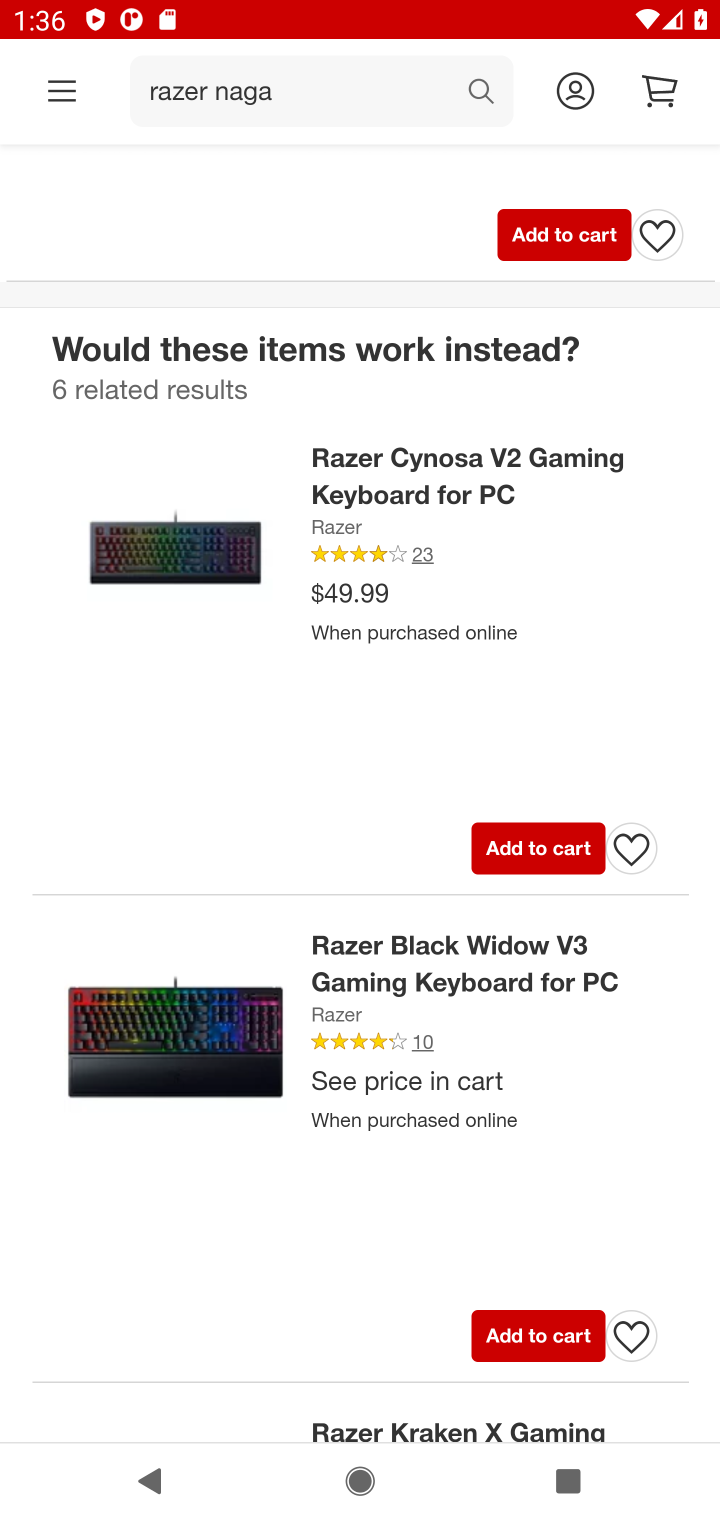
Step 27: drag from (384, 1168) to (429, 665)
Your task to perform on an android device: Clear all items from cart on target.com. Search for "razer naga" on target.com, select the first entry, add it to the cart, then select checkout. Image 28: 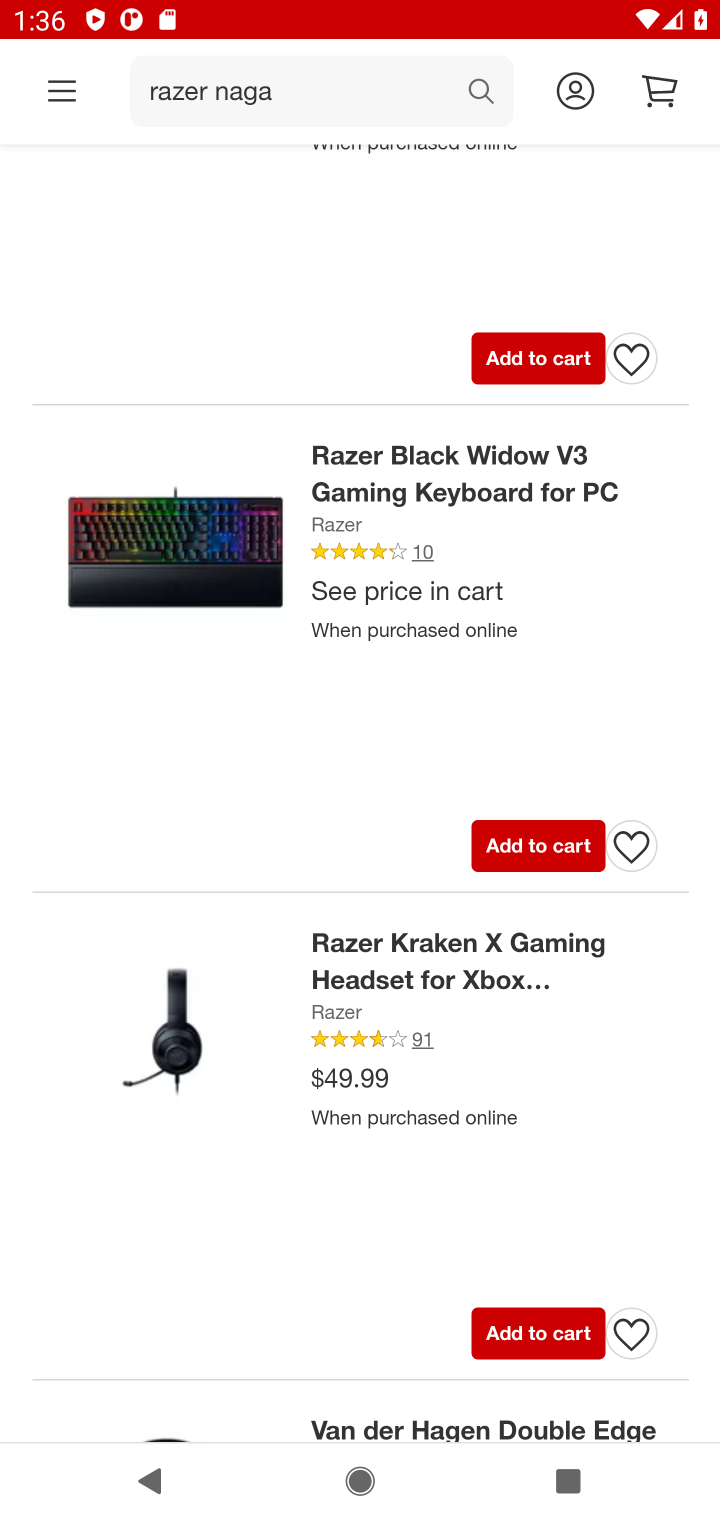
Step 28: drag from (470, 1117) to (573, 450)
Your task to perform on an android device: Clear all items from cart on target.com. Search for "razer naga" on target.com, select the first entry, add it to the cart, then select checkout. Image 29: 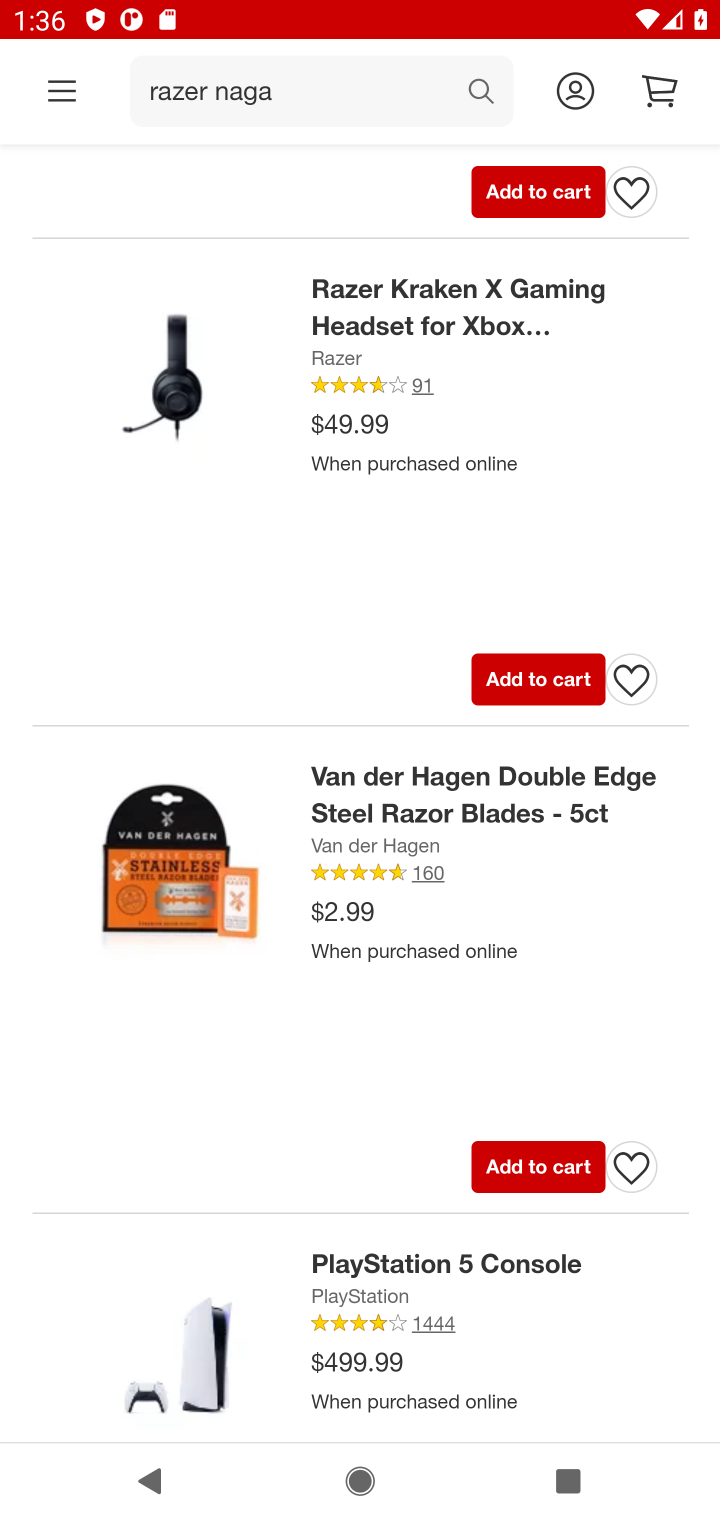
Step 29: click (627, 692)
Your task to perform on an android device: Clear all items from cart on target.com. Search for "razer naga" on target.com, select the first entry, add it to the cart, then select checkout. Image 30: 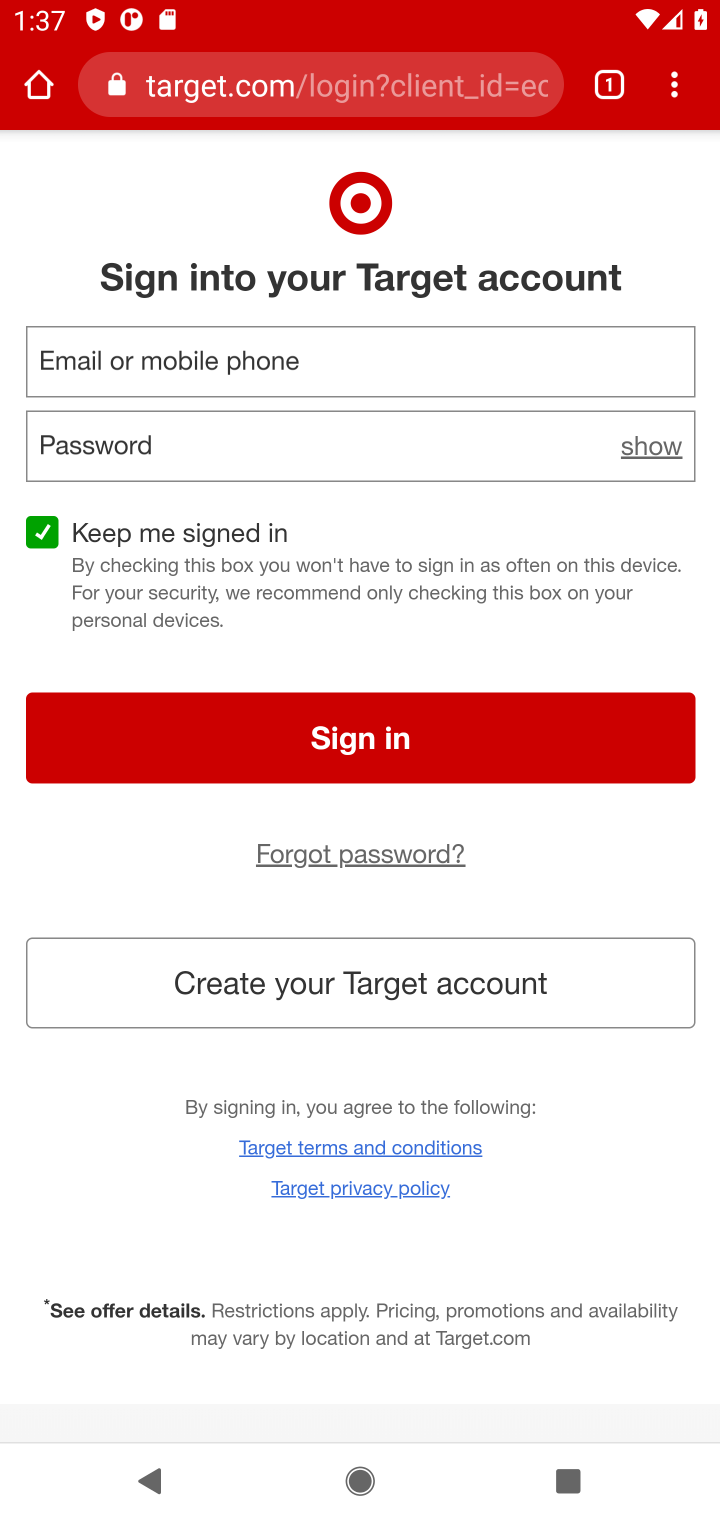
Step 30: task complete